Your task to perform on an android device: What are the best selling refrigerators at Home Depot? Image 0: 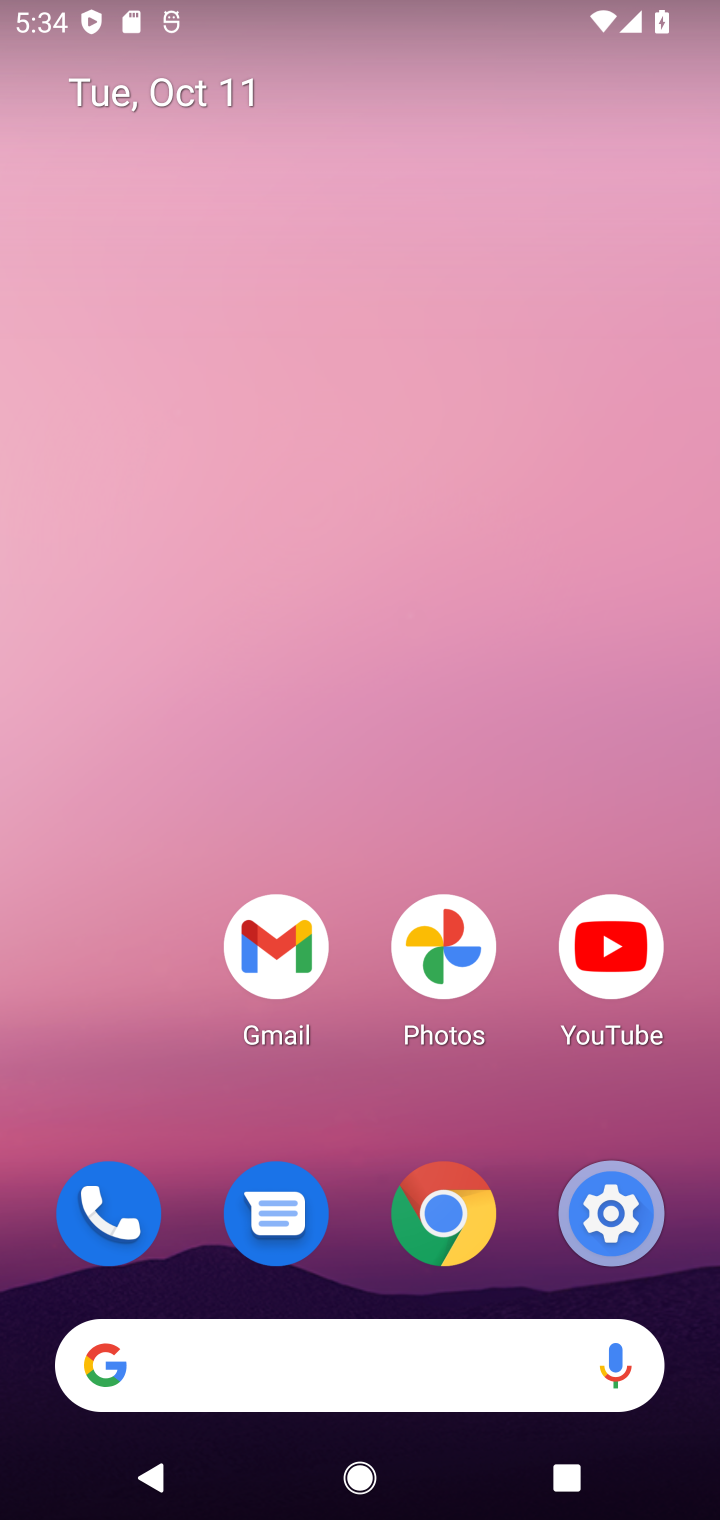
Step 0: click (447, 1229)
Your task to perform on an android device: What are the best selling refrigerators at Home Depot? Image 1: 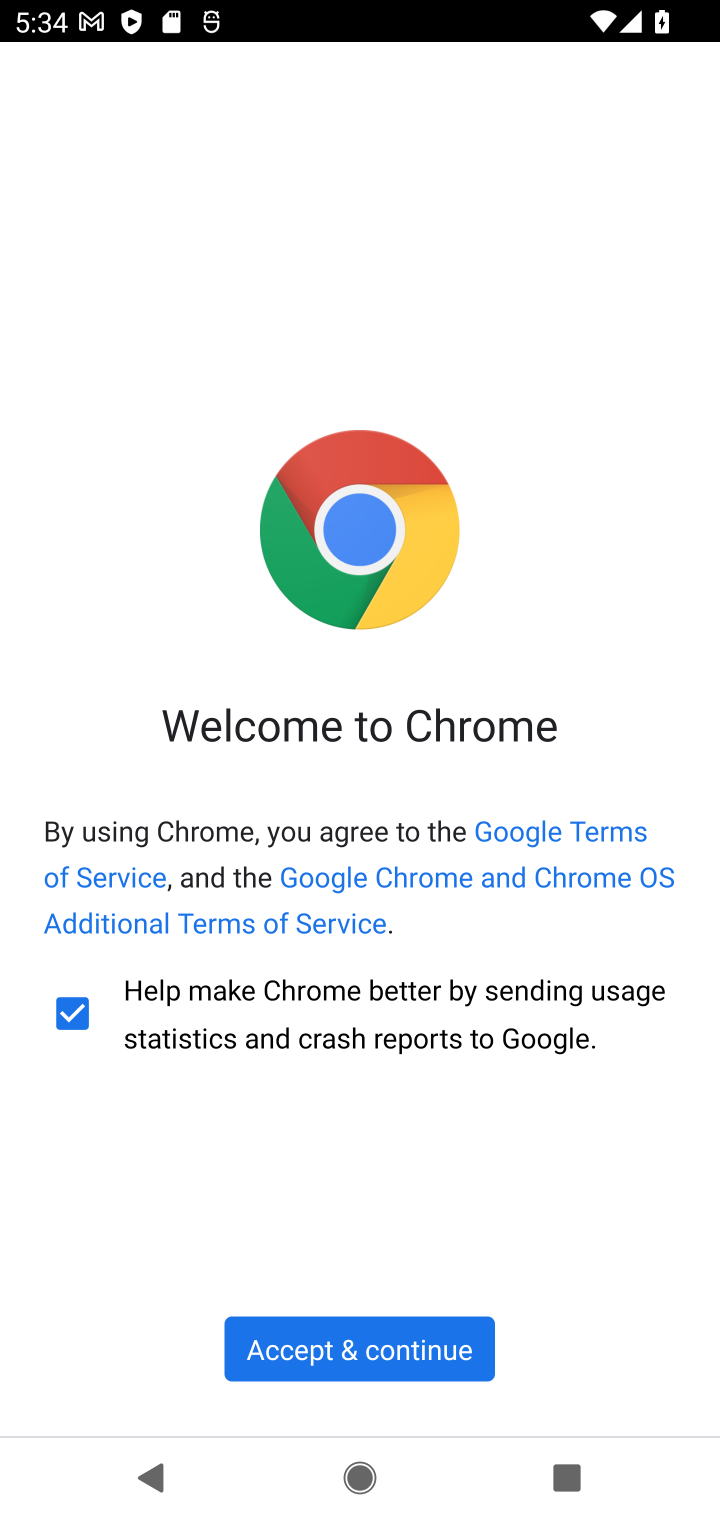
Step 1: click (431, 1337)
Your task to perform on an android device: What are the best selling refrigerators at Home Depot? Image 2: 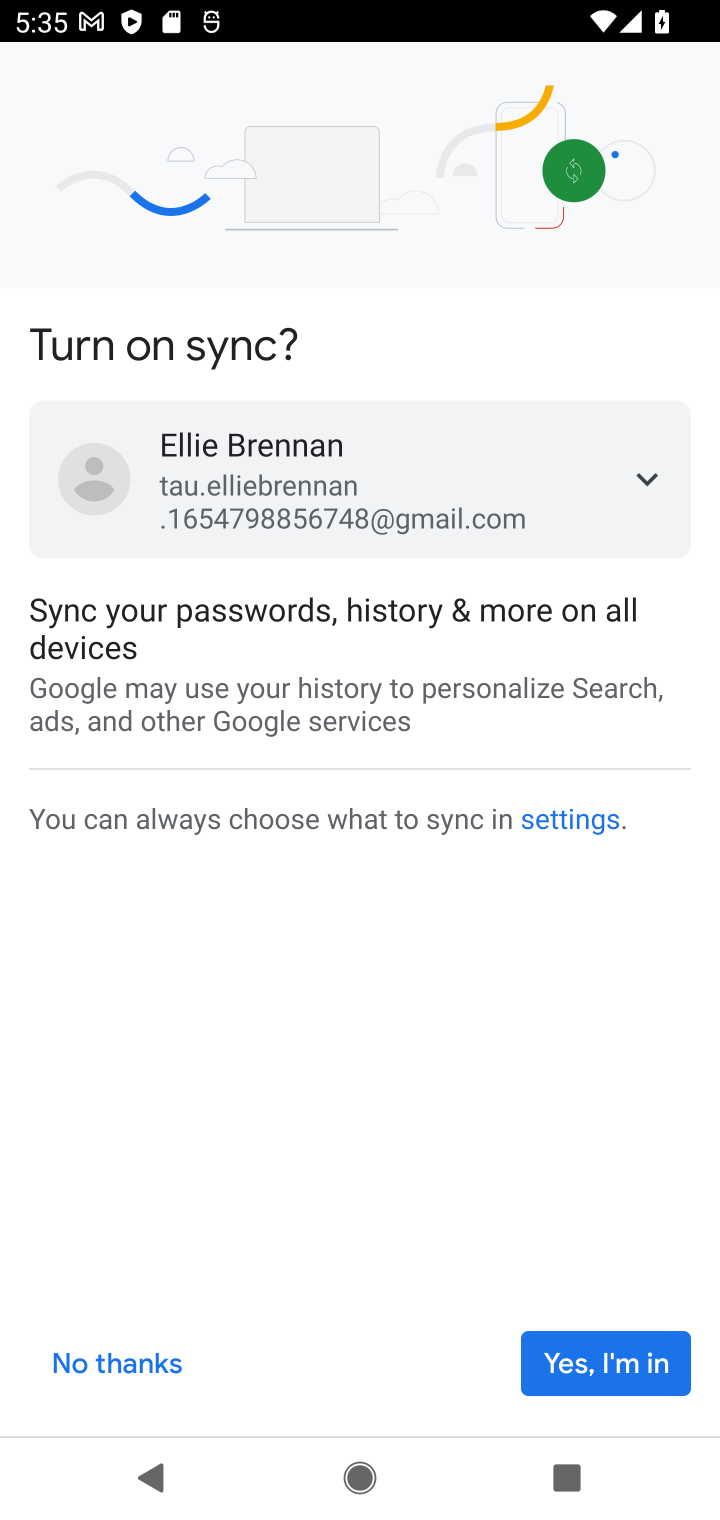
Step 2: click (590, 1365)
Your task to perform on an android device: What are the best selling refrigerators at Home Depot? Image 3: 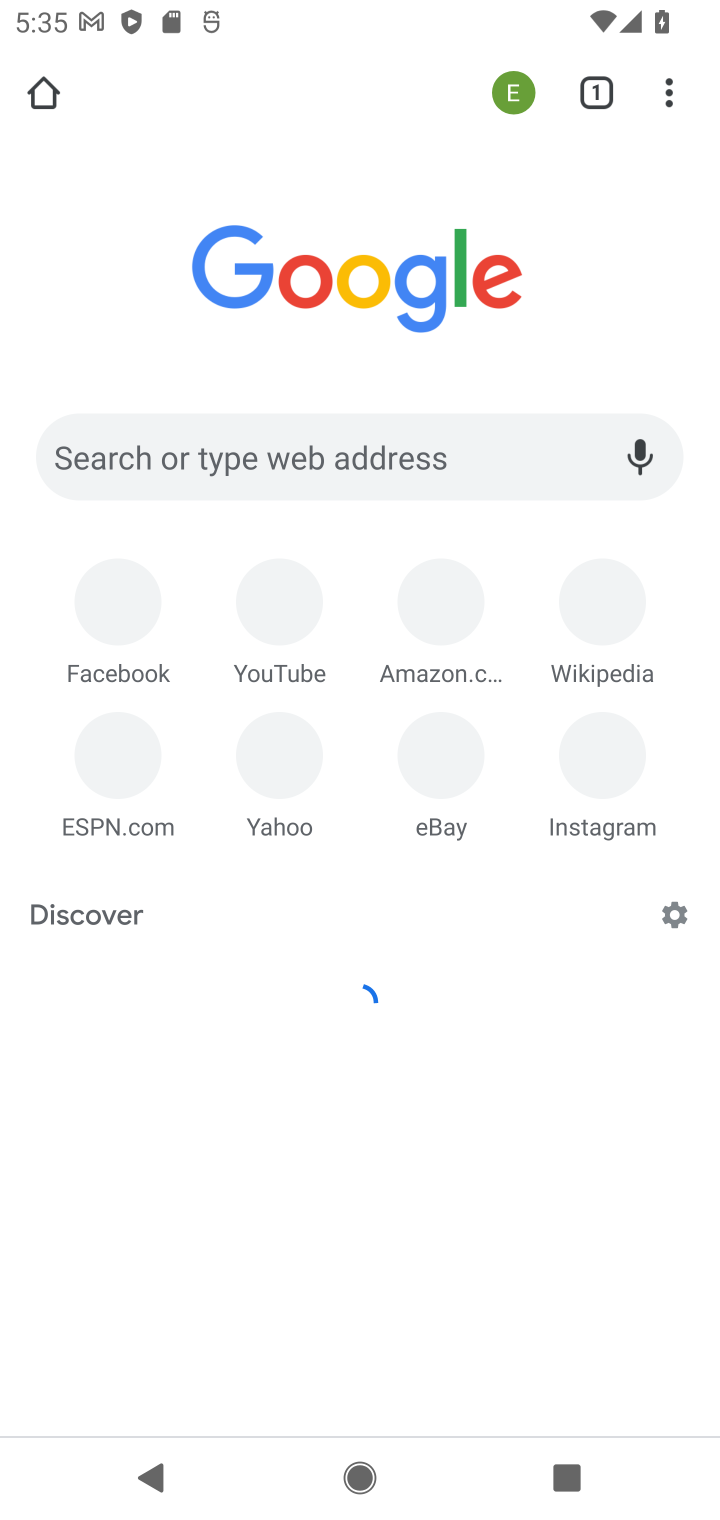
Step 3: click (422, 449)
Your task to perform on an android device: What are the best selling refrigerators at Home Depot? Image 4: 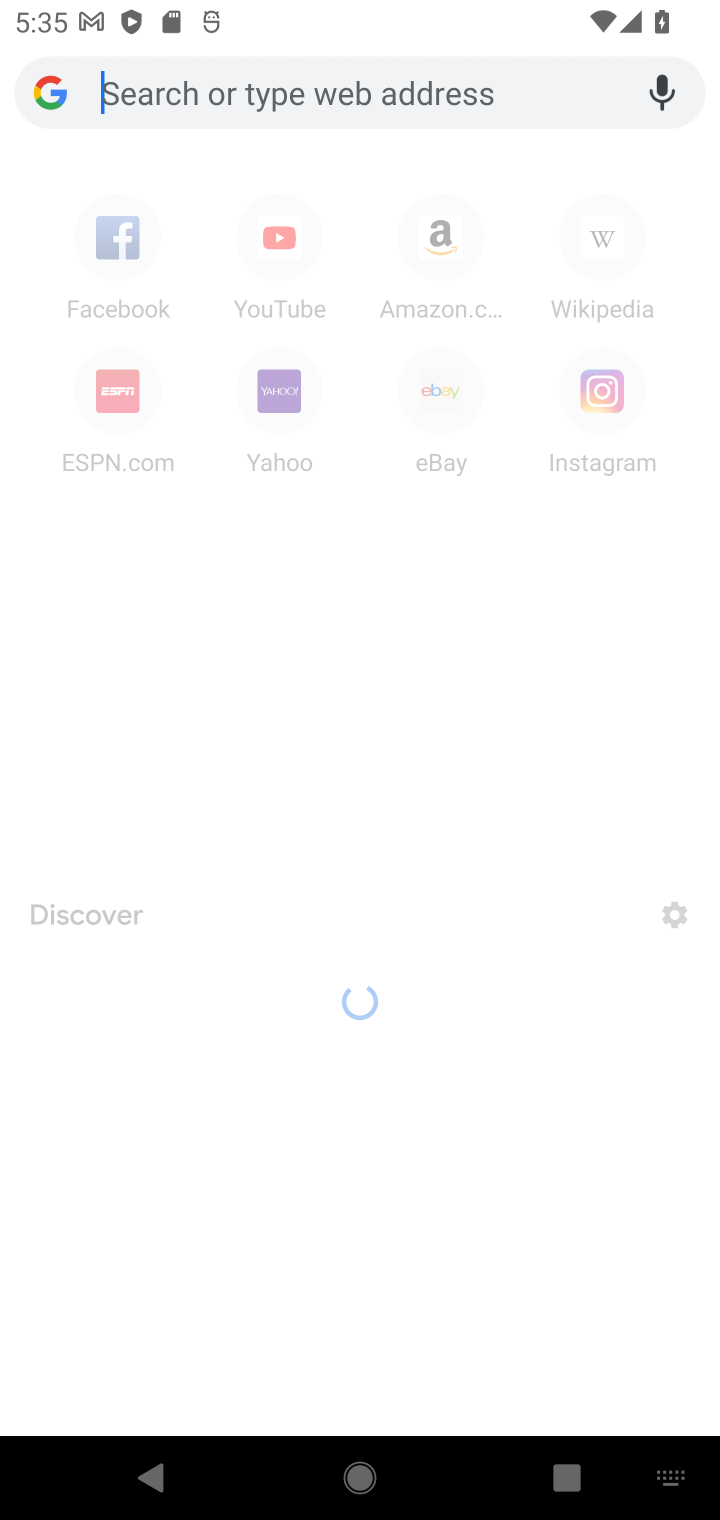
Step 4: type "What are the best selling refrigerators at Home Depot?"
Your task to perform on an android device: What are the best selling refrigerators at Home Depot? Image 5: 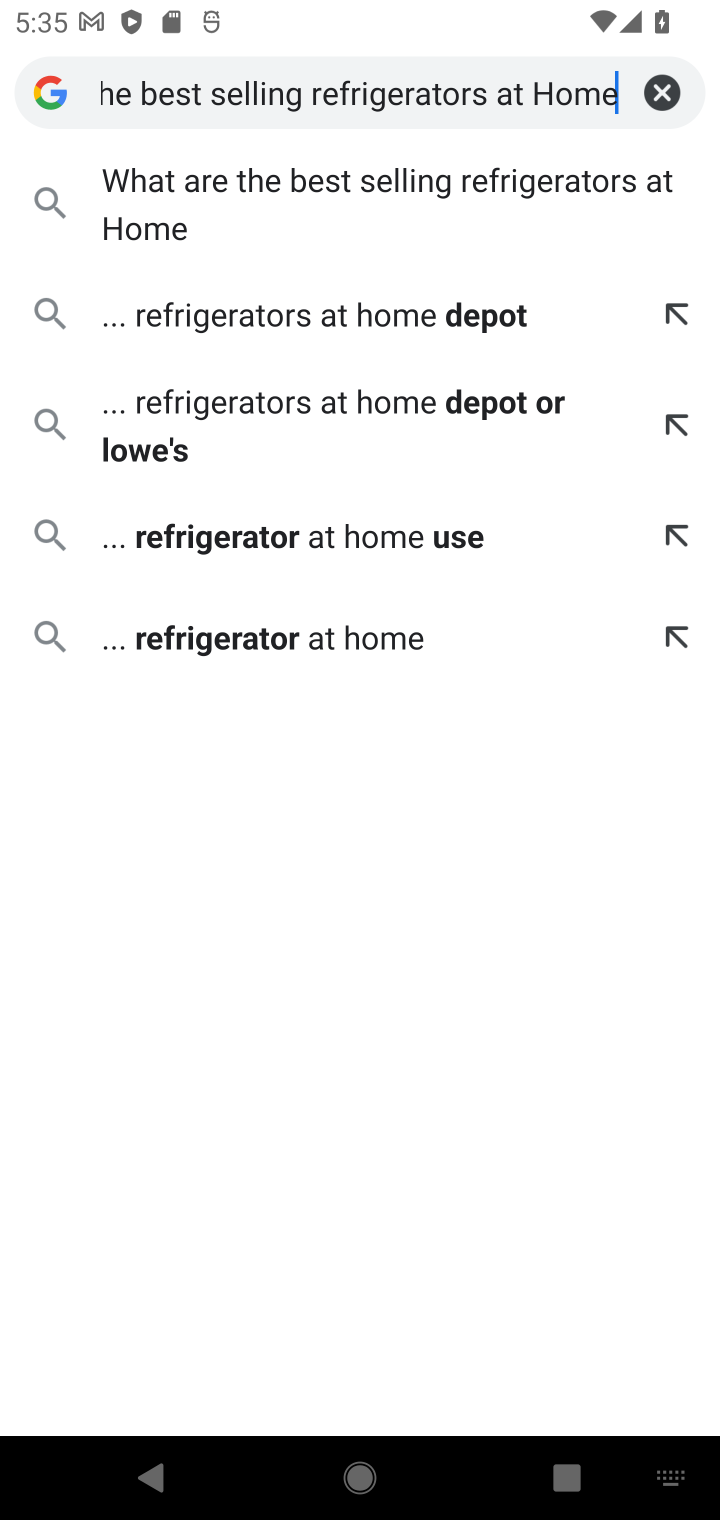
Step 5: press enter
Your task to perform on an android device: What are the best selling refrigerators at Home Depot? Image 6: 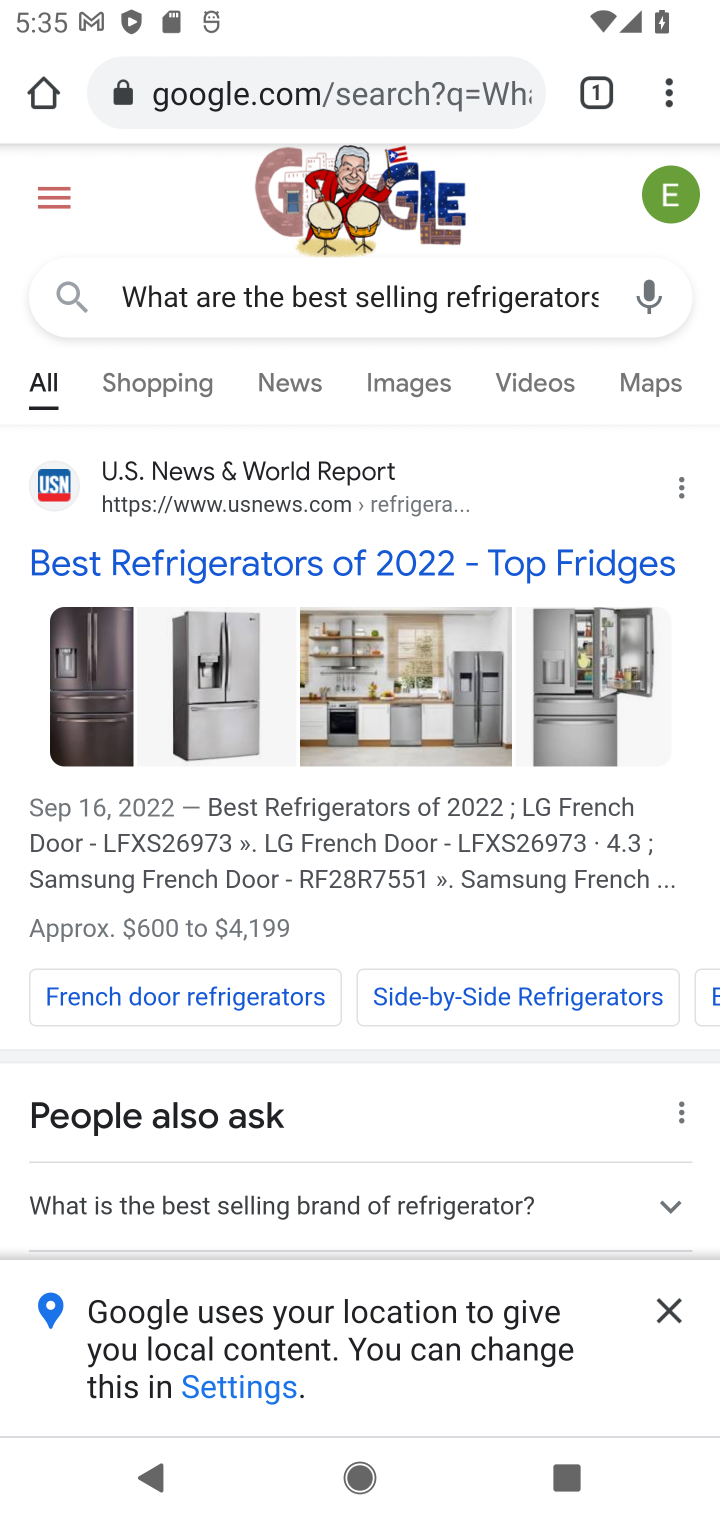
Step 6: drag from (419, 1126) to (397, 1222)
Your task to perform on an android device: What are the best selling refrigerators at Home Depot? Image 7: 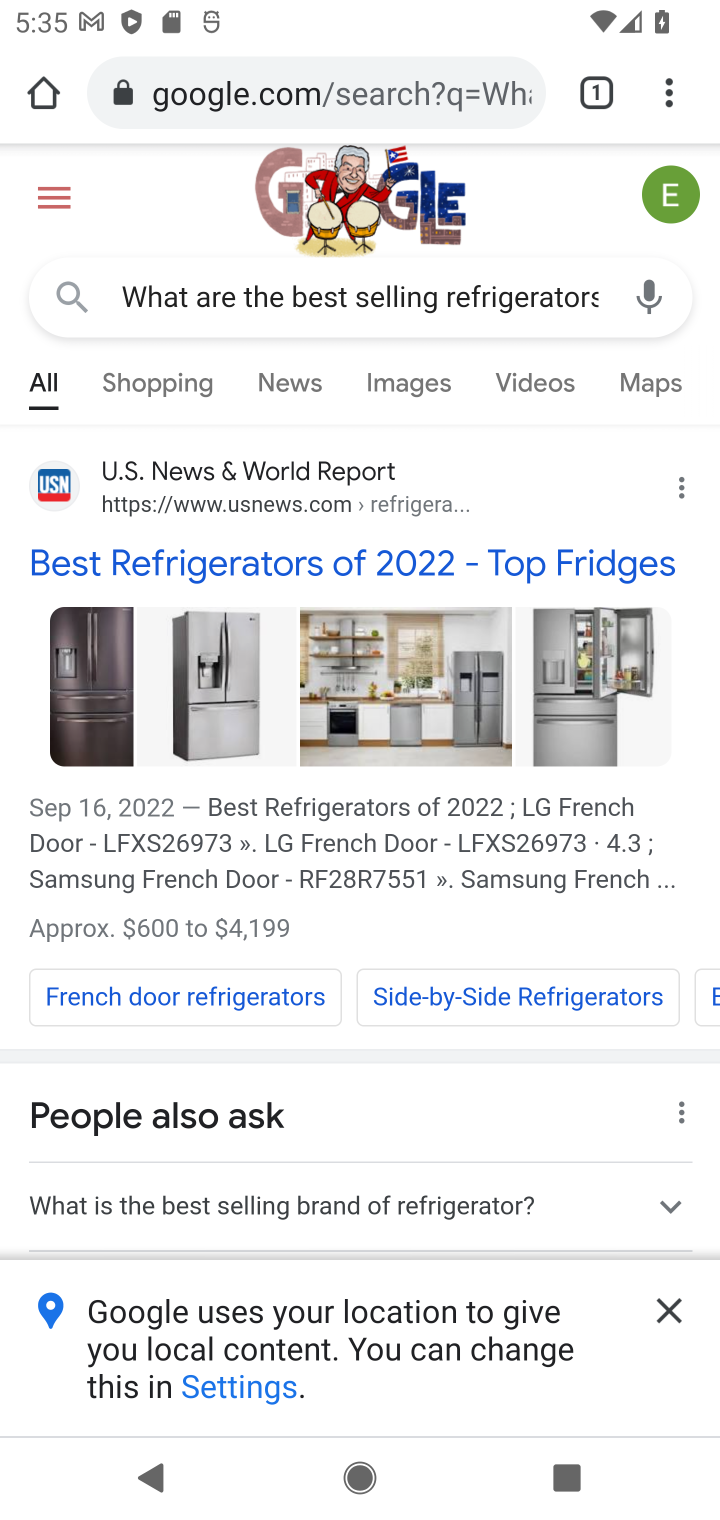
Step 7: click (365, 90)
Your task to perform on an android device: What are the best selling refrigerators at Home Depot? Image 8: 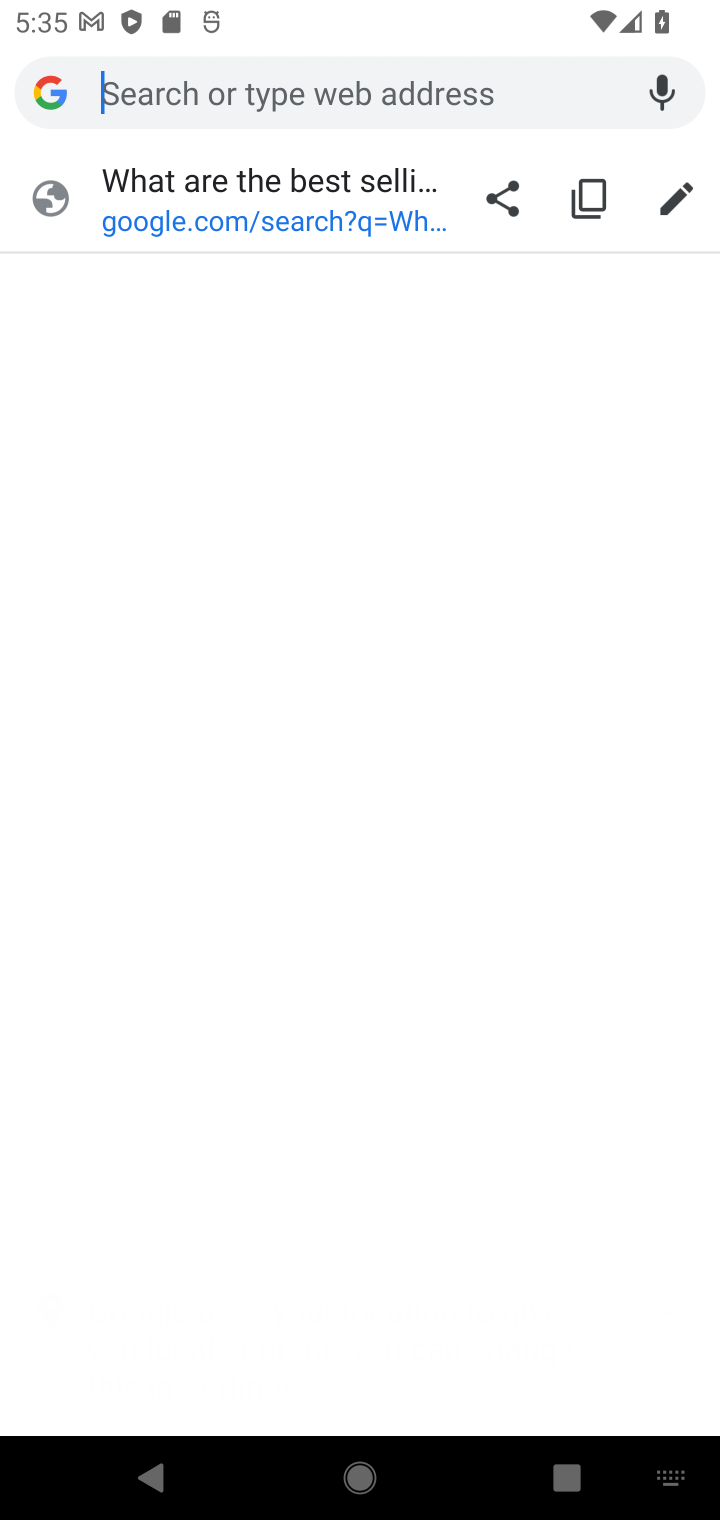
Step 8: type "What are the best selling refrigerators at Home Depot?"
Your task to perform on an android device: What are the best selling refrigerators at Home Depot? Image 9: 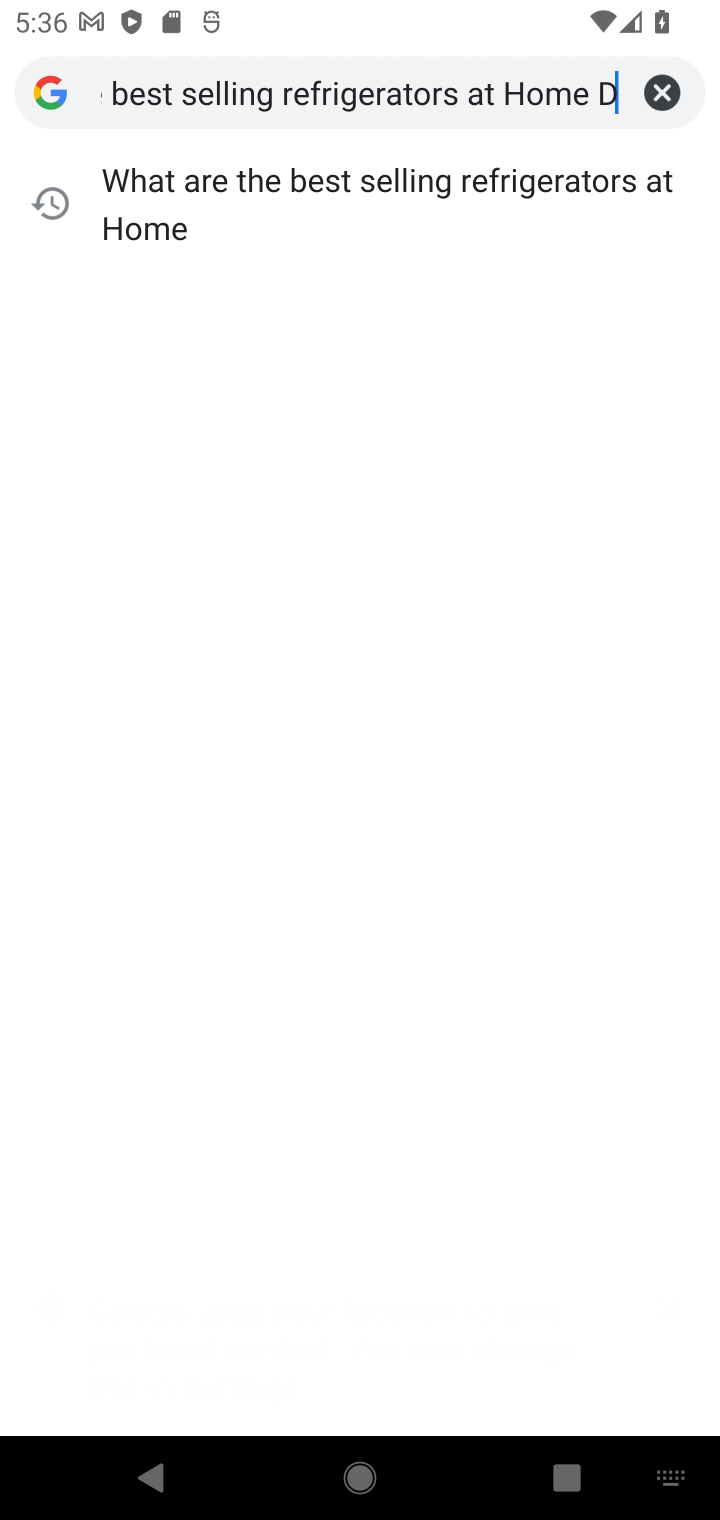
Step 9: type ""
Your task to perform on an android device: What are the best selling refrigerators at Home Depot? Image 10: 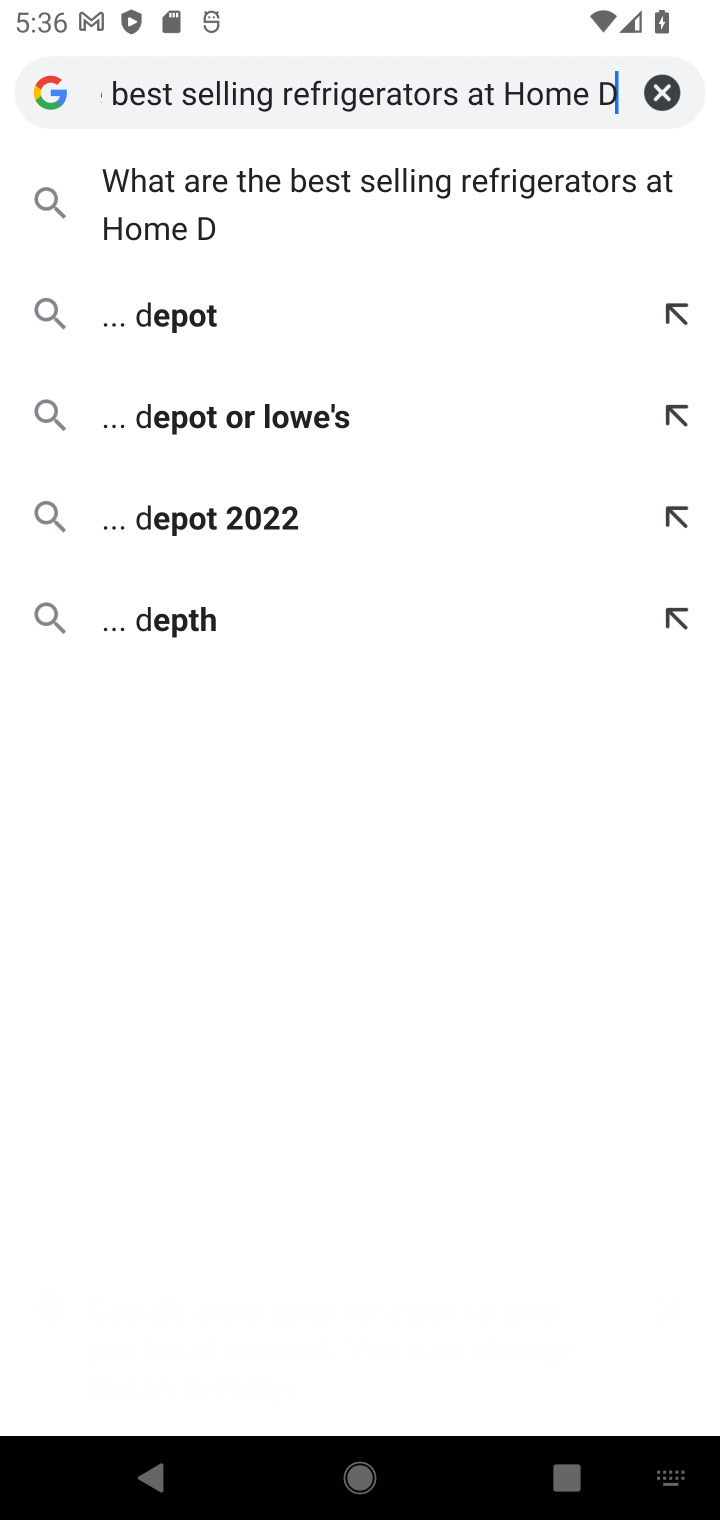
Step 10: click (258, 334)
Your task to perform on an android device: What are the best selling refrigerators at Home Depot? Image 11: 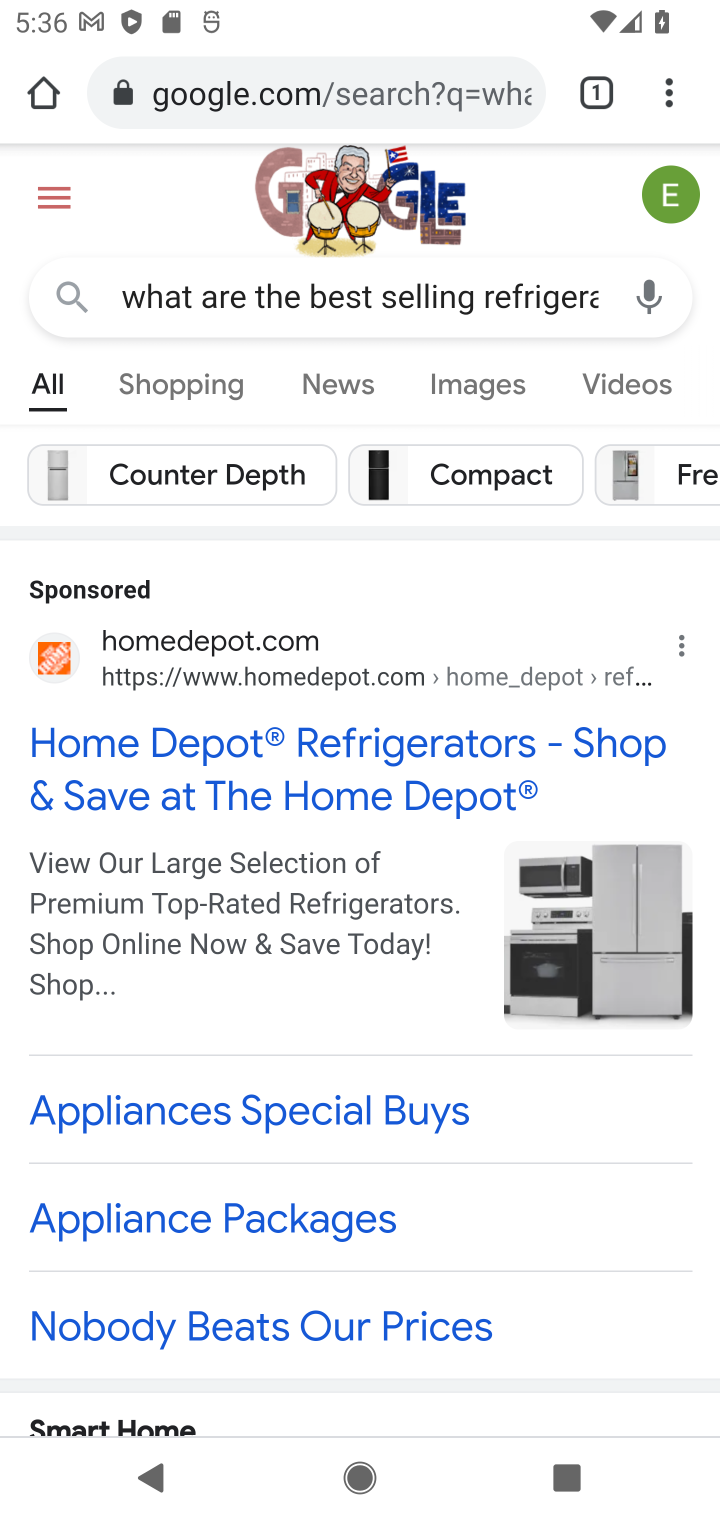
Step 11: click (267, 748)
Your task to perform on an android device: What are the best selling refrigerators at Home Depot? Image 12: 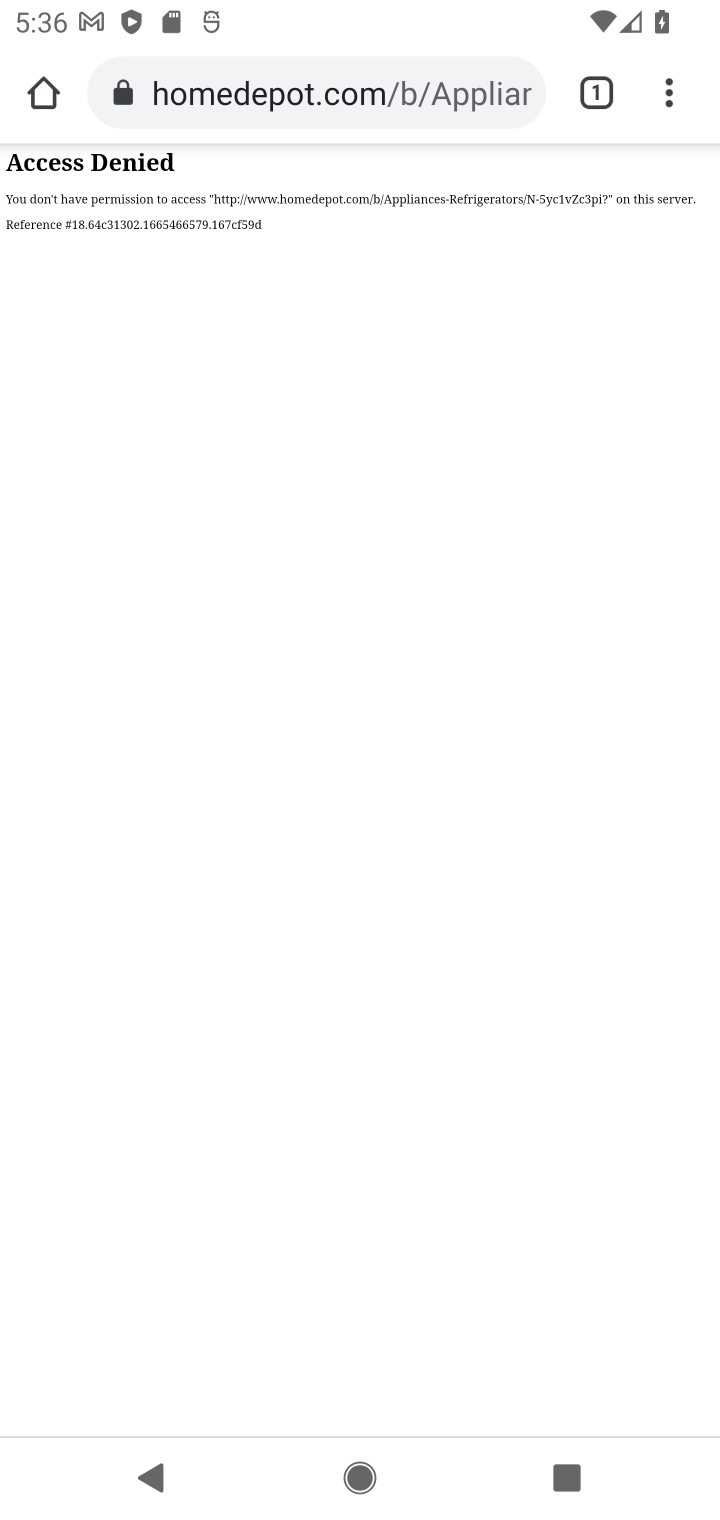
Step 12: press back button
Your task to perform on an android device: What are the best selling refrigerators at Home Depot? Image 13: 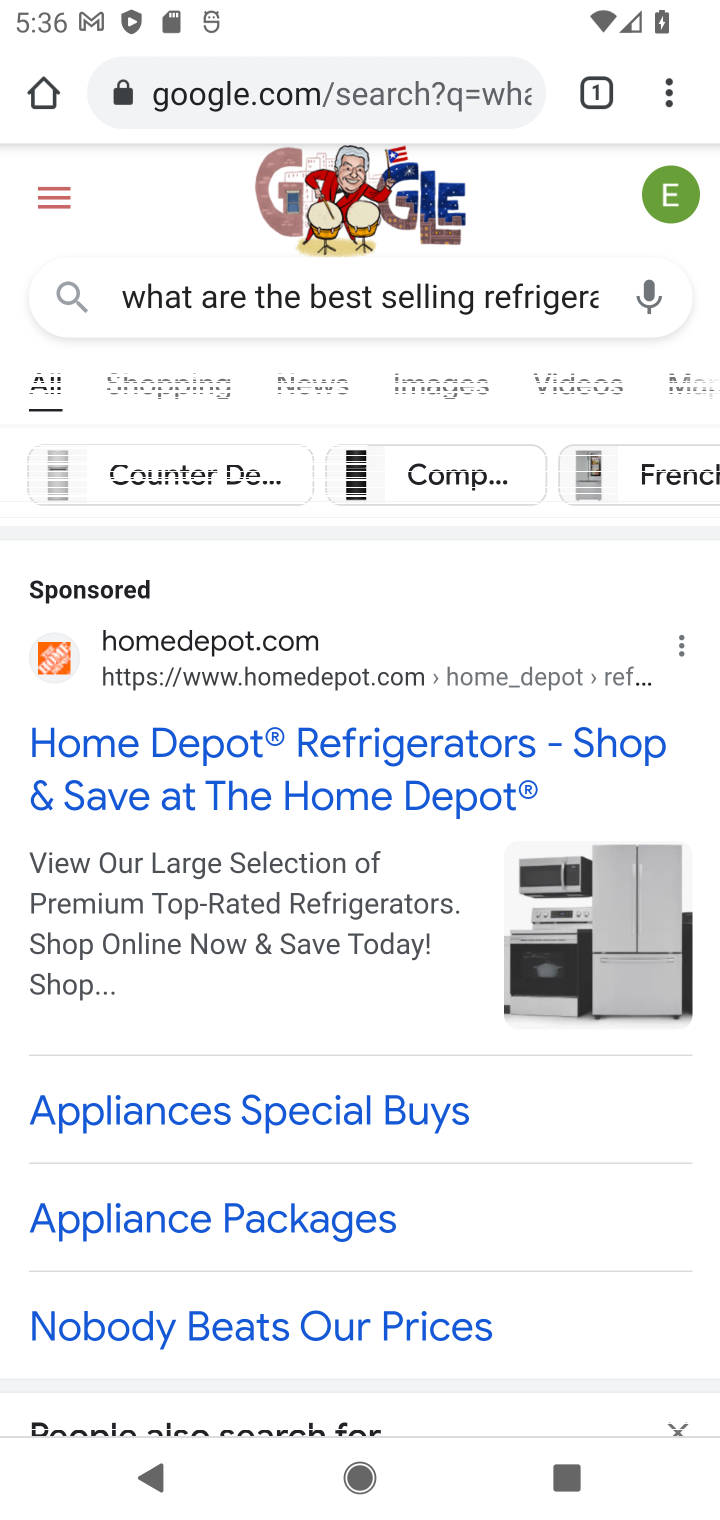
Step 13: drag from (303, 1141) to (334, 512)
Your task to perform on an android device: What are the best selling refrigerators at Home Depot? Image 14: 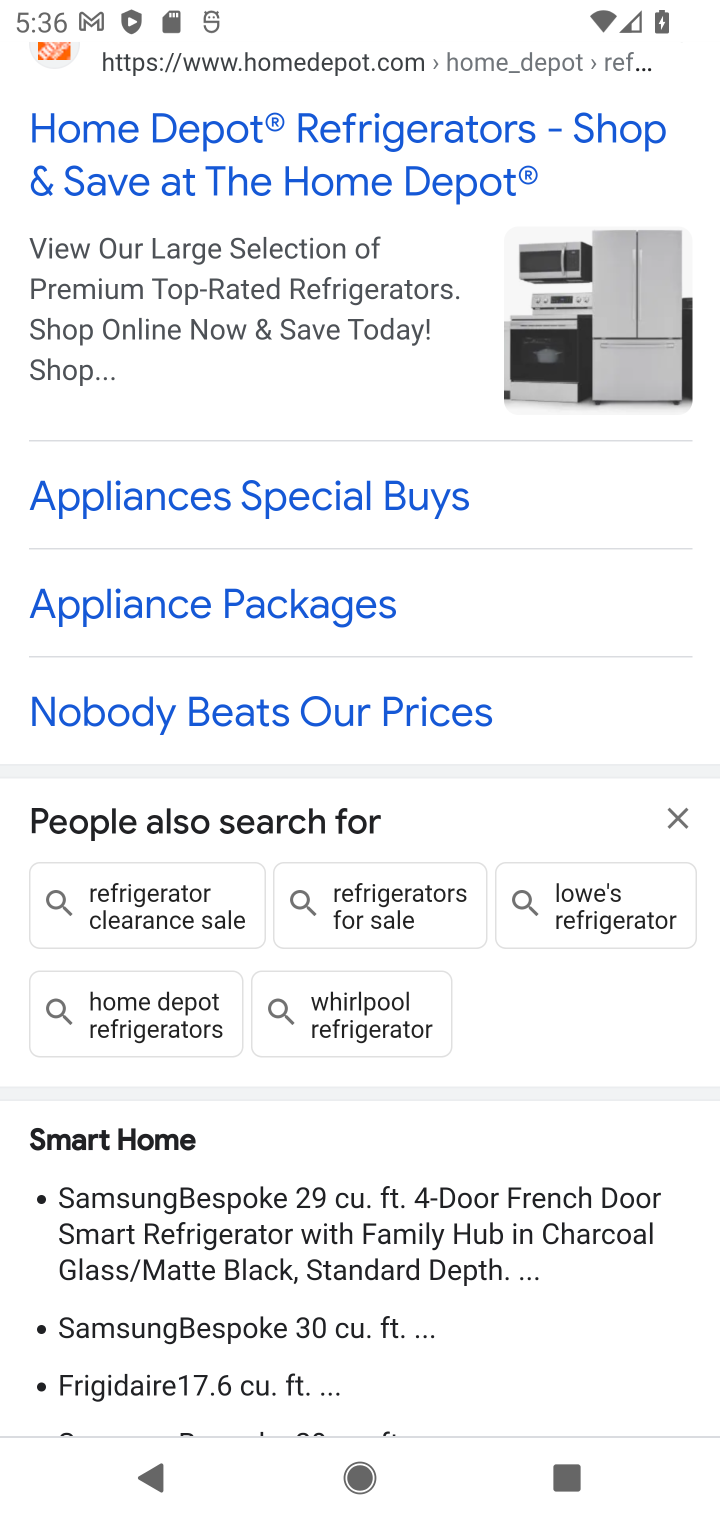
Step 14: drag from (282, 1158) to (332, 408)
Your task to perform on an android device: What are the best selling refrigerators at Home Depot? Image 15: 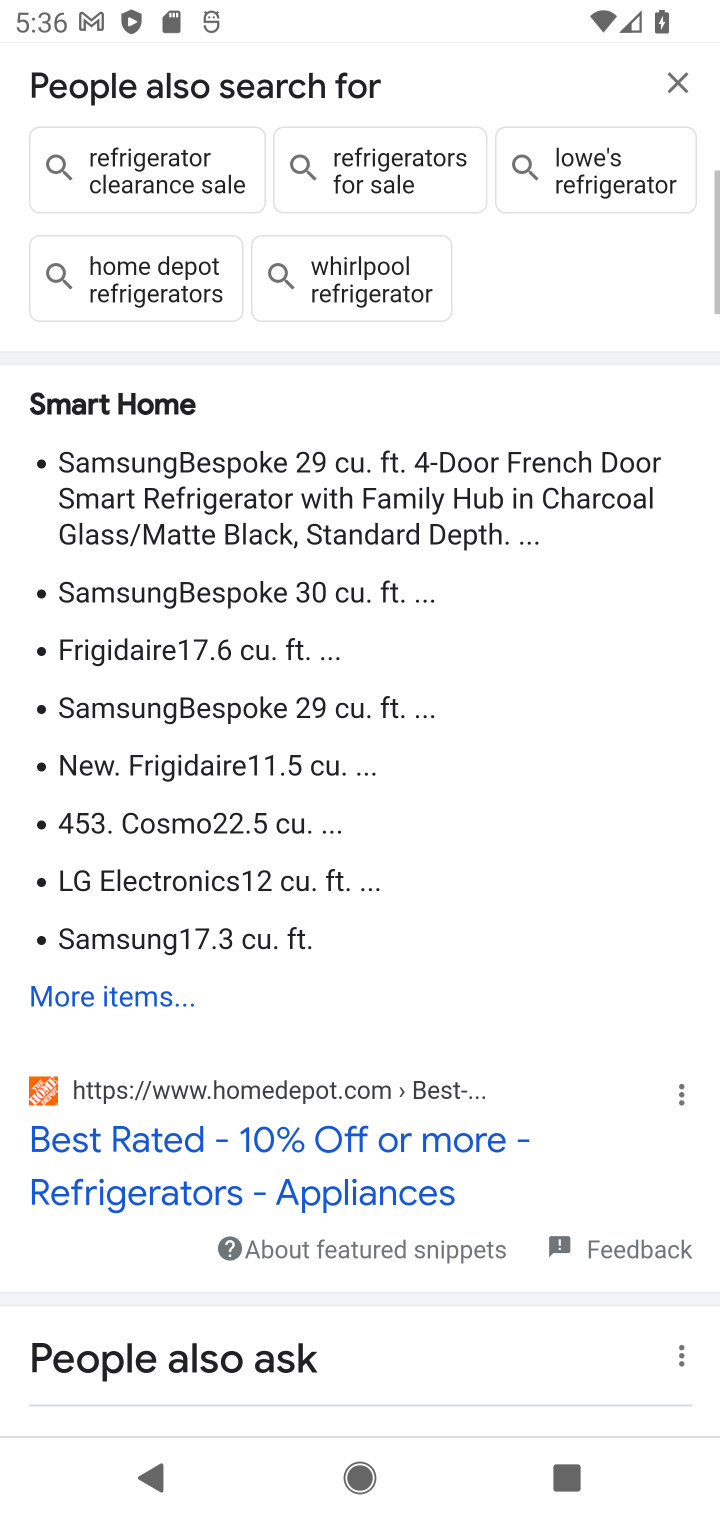
Step 15: drag from (352, 904) to (405, 474)
Your task to perform on an android device: What are the best selling refrigerators at Home Depot? Image 16: 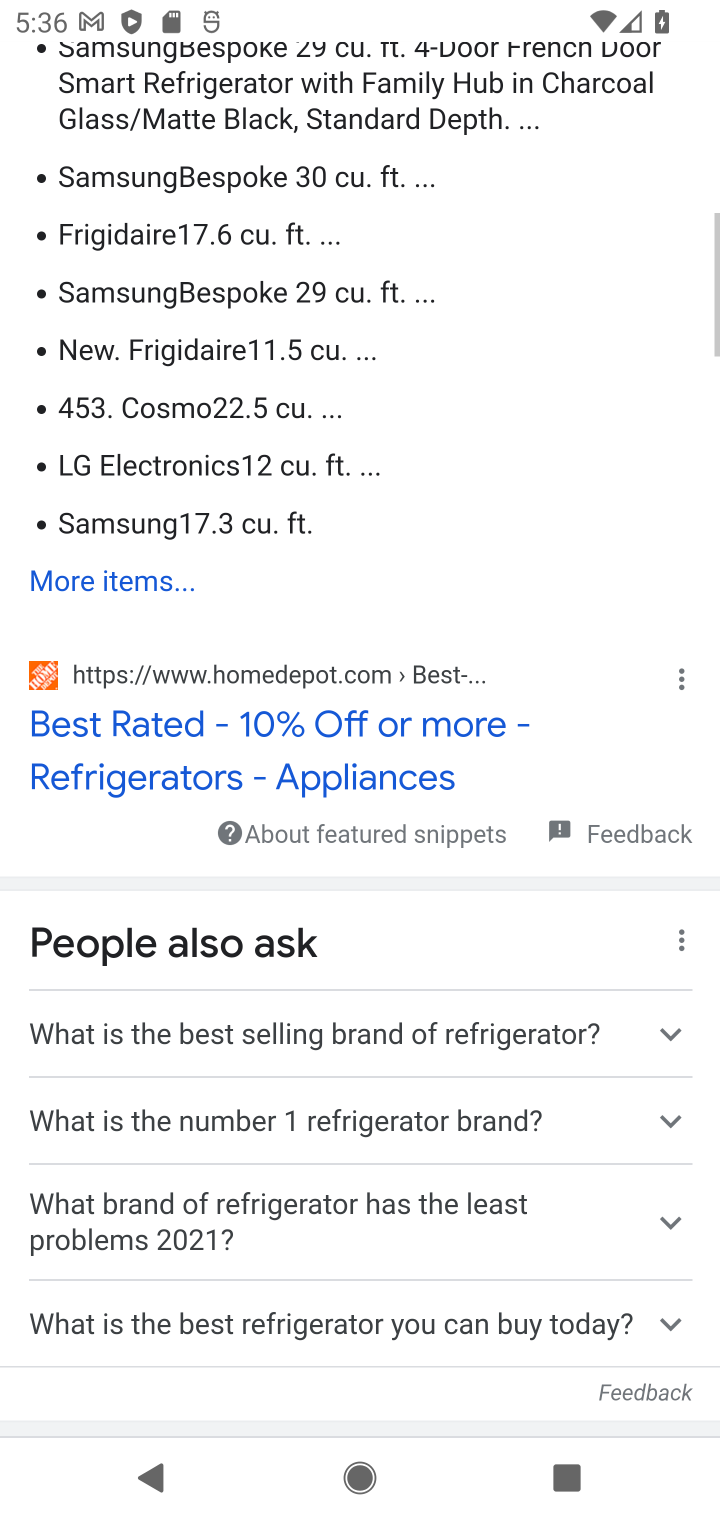
Step 16: drag from (390, 860) to (408, 626)
Your task to perform on an android device: What are the best selling refrigerators at Home Depot? Image 17: 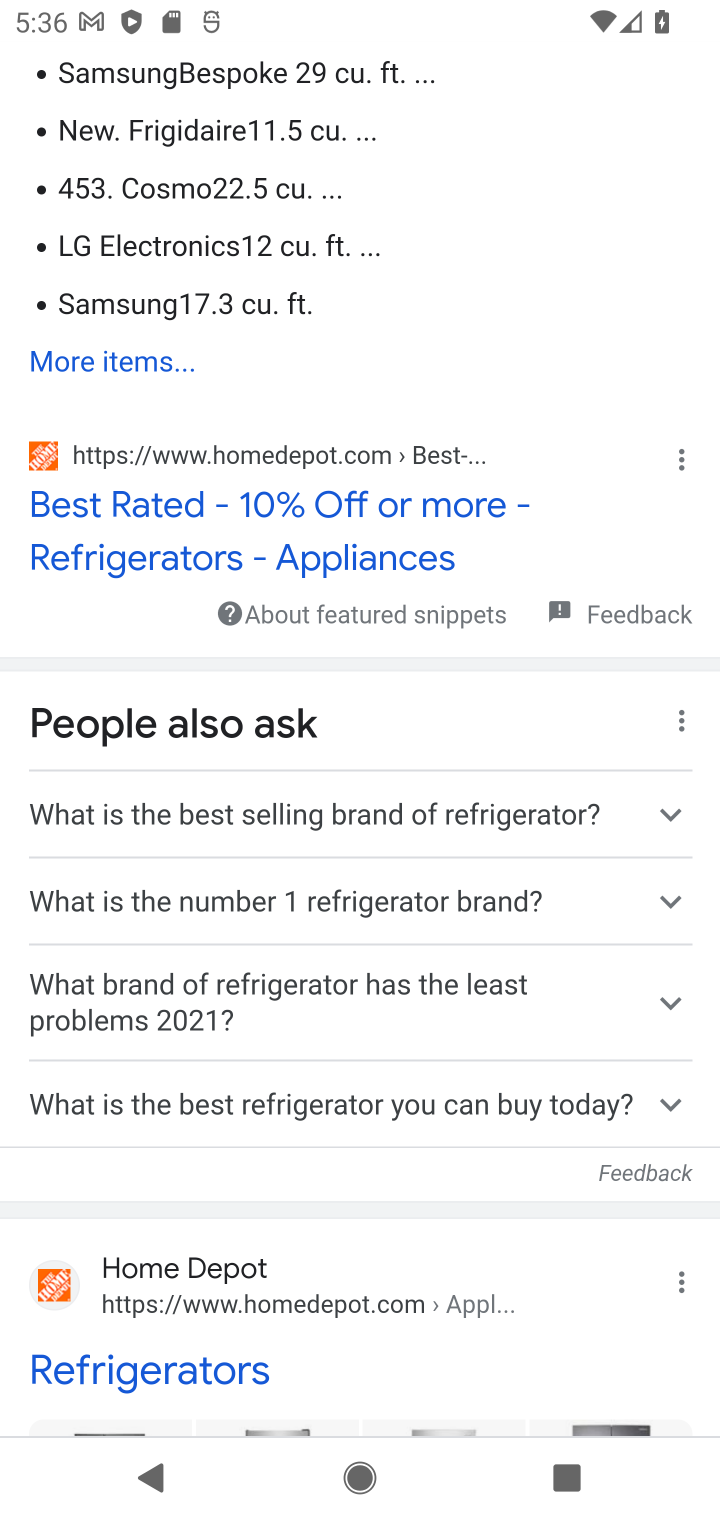
Step 17: click (338, 503)
Your task to perform on an android device: What are the best selling refrigerators at Home Depot? Image 18: 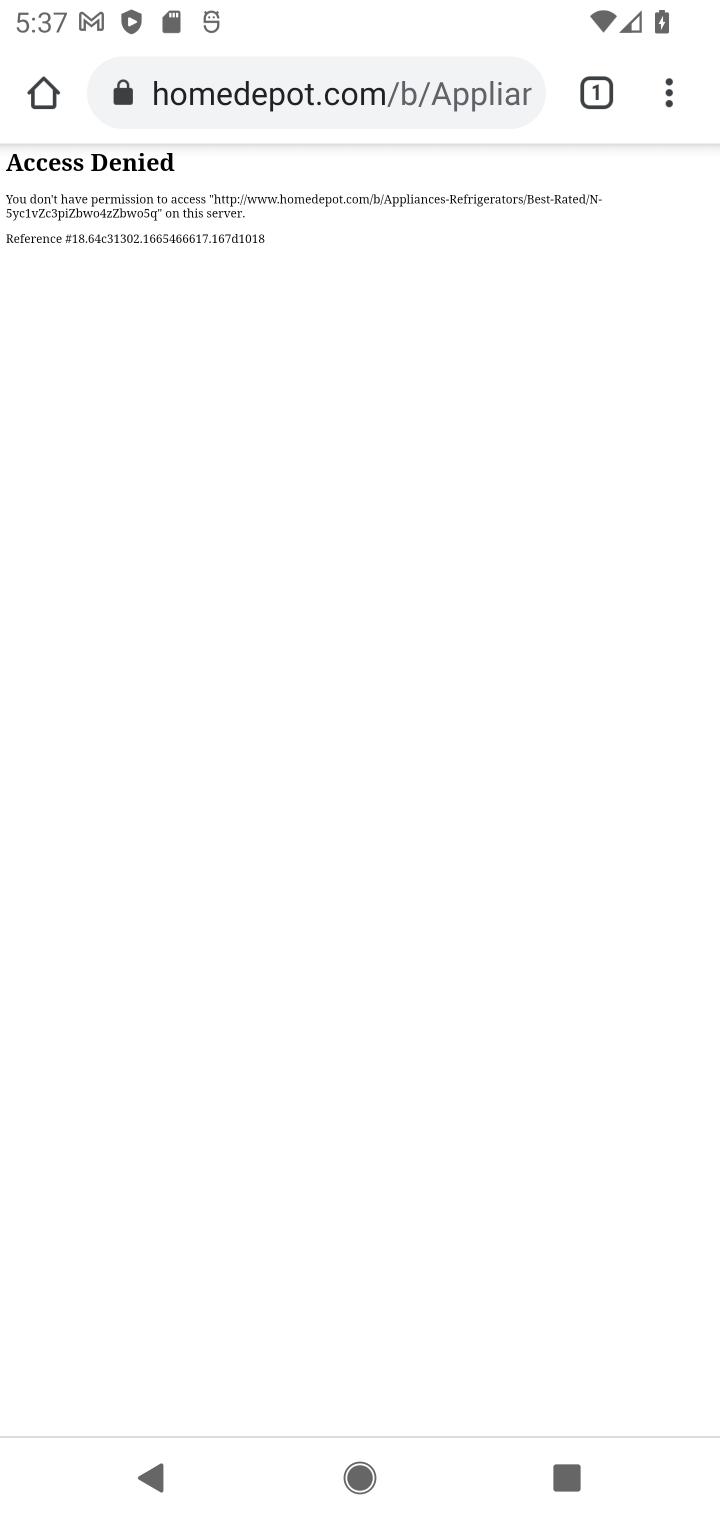
Step 18: press back button
Your task to perform on an android device: What are the best selling refrigerators at Home Depot? Image 19: 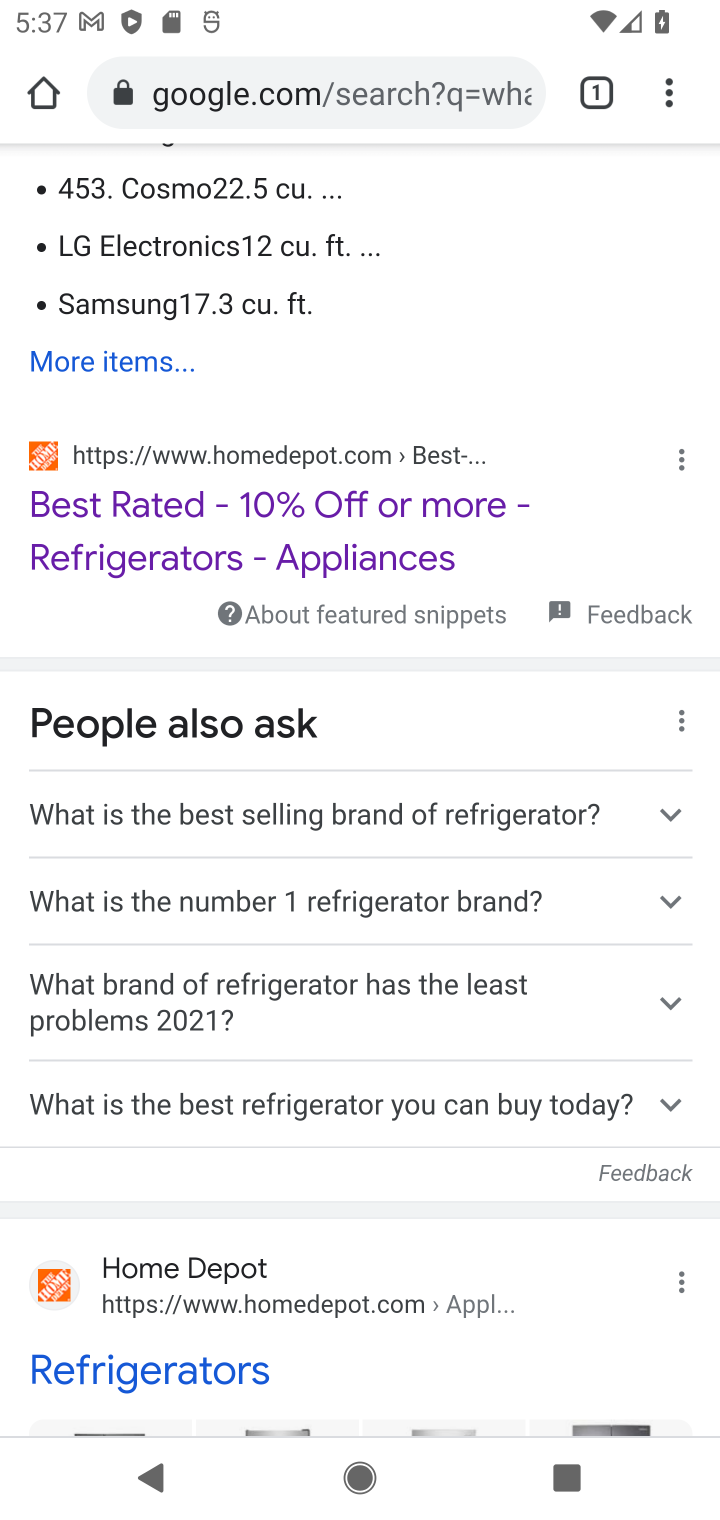
Step 19: drag from (667, 915) to (669, 494)
Your task to perform on an android device: What are the best selling refrigerators at Home Depot? Image 20: 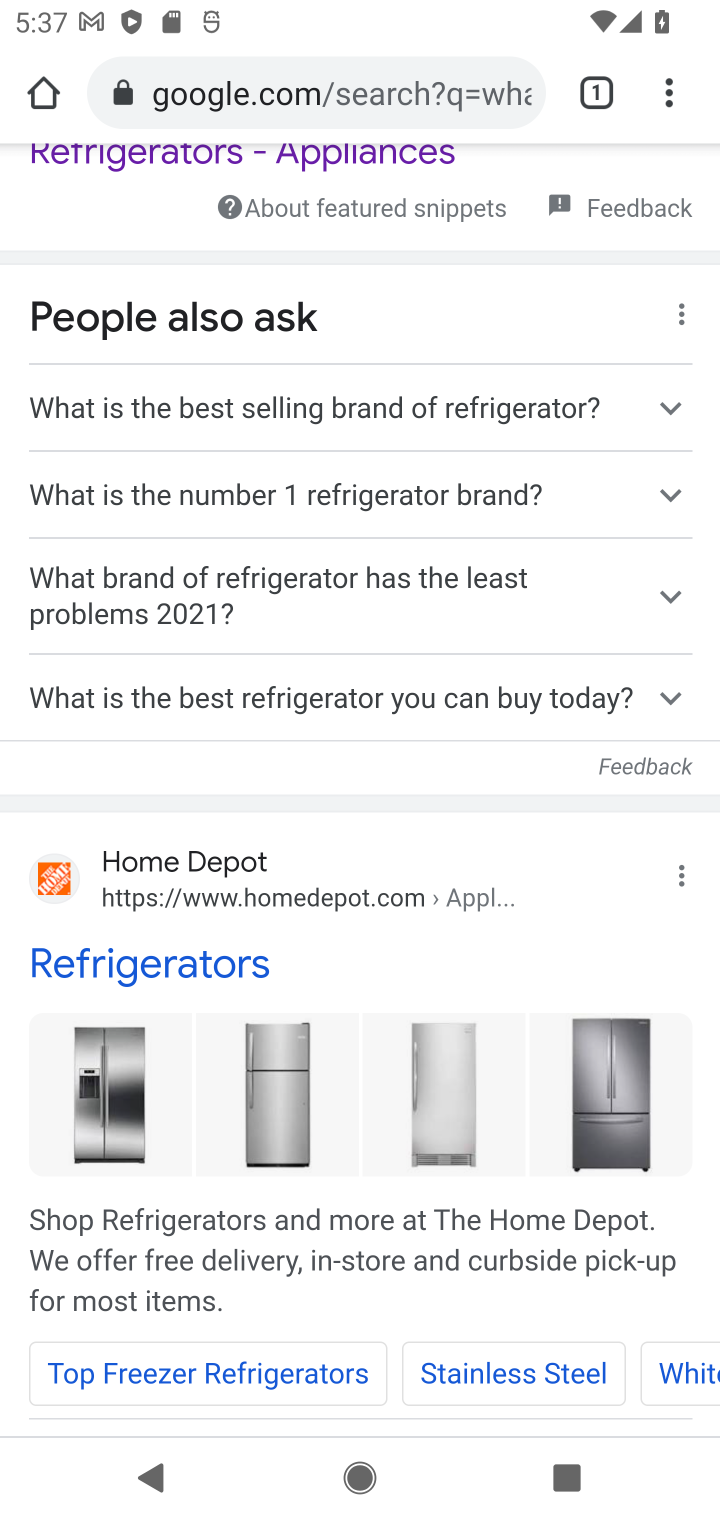
Step 20: drag from (454, 1091) to (528, 167)
Your task to perform on an android device: What are the best selling refrigerators at Home Depot? Image 21: 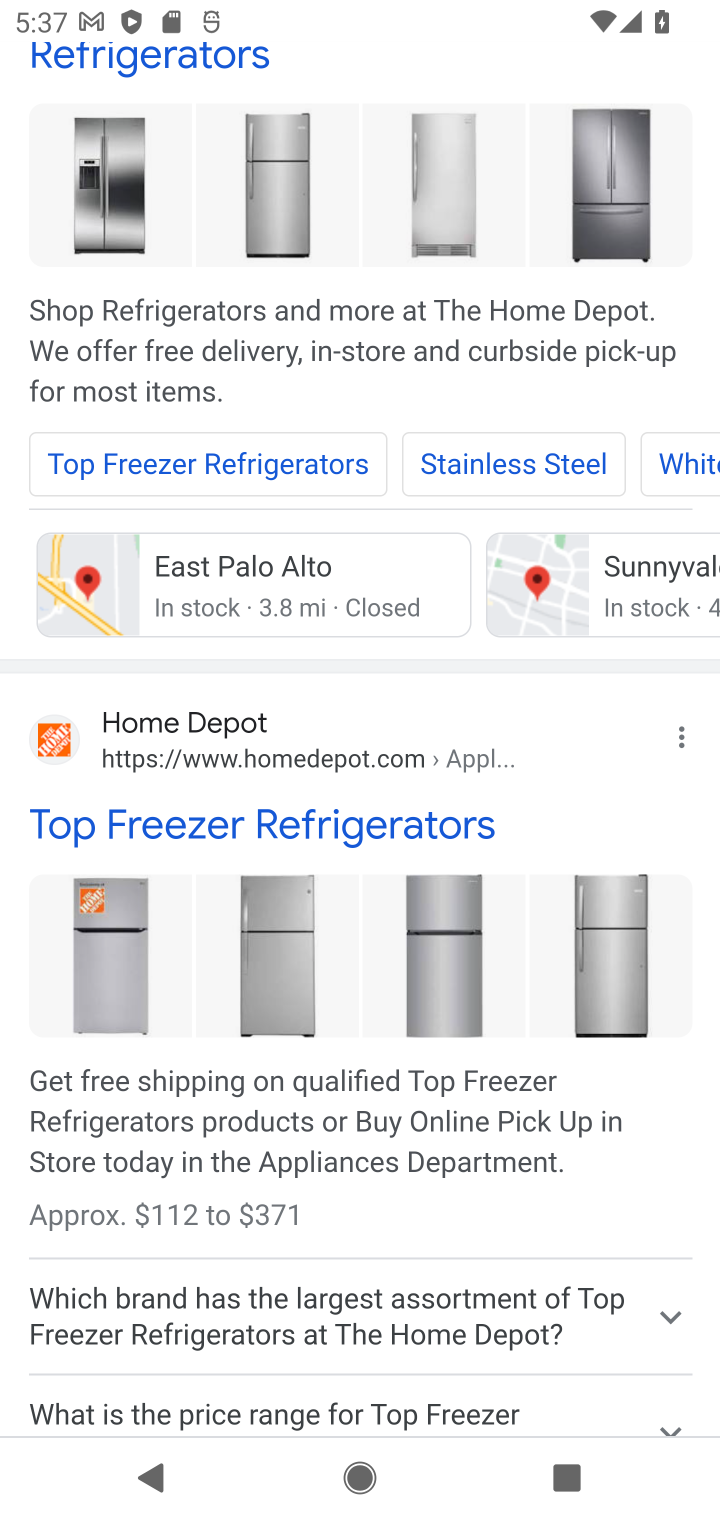
Step 21: click (202, 748)
Your task to perform on an android device: What are the best selling refrigerators at Home Depot? Image 22: 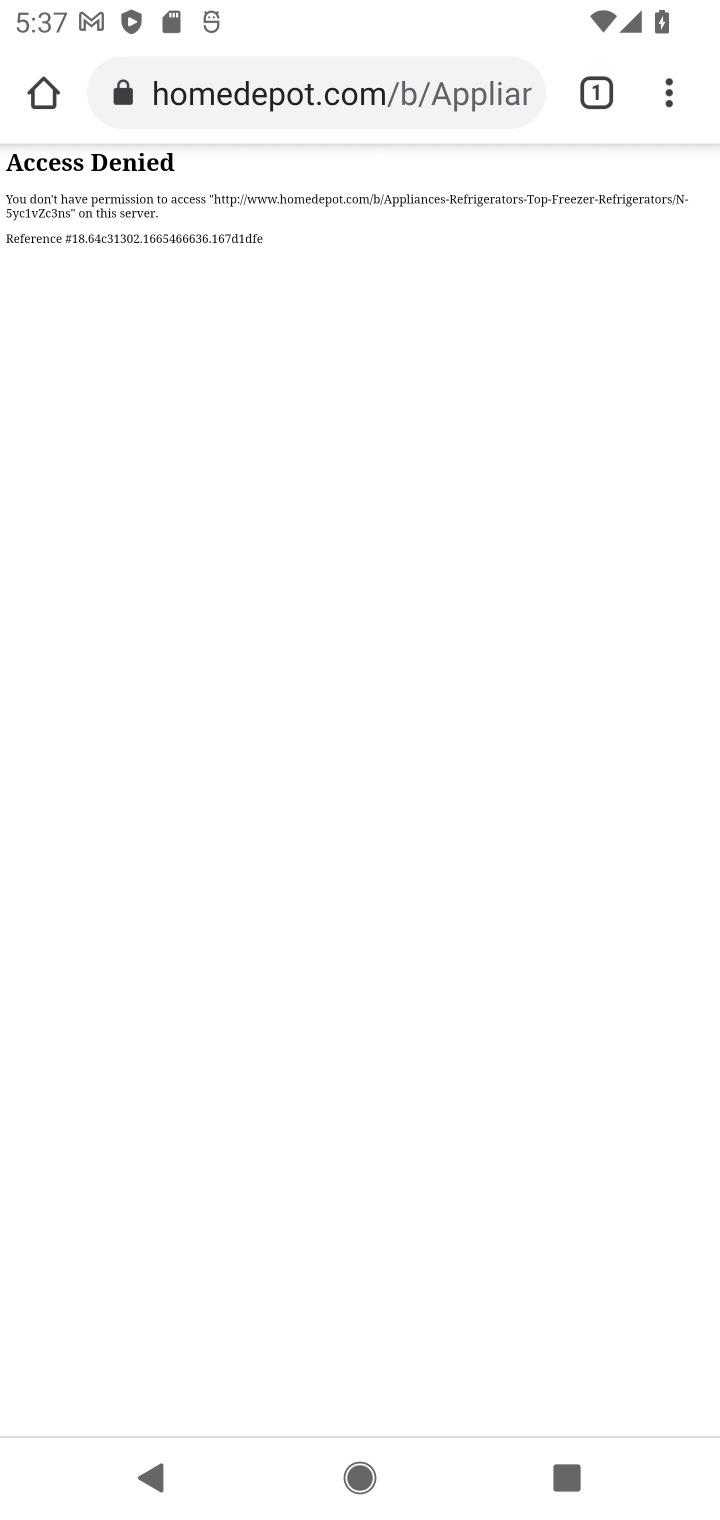
Step 22: press back button
Your task to perform on an android device: What are the best selling refrigerators at Home Depot? Image 23: 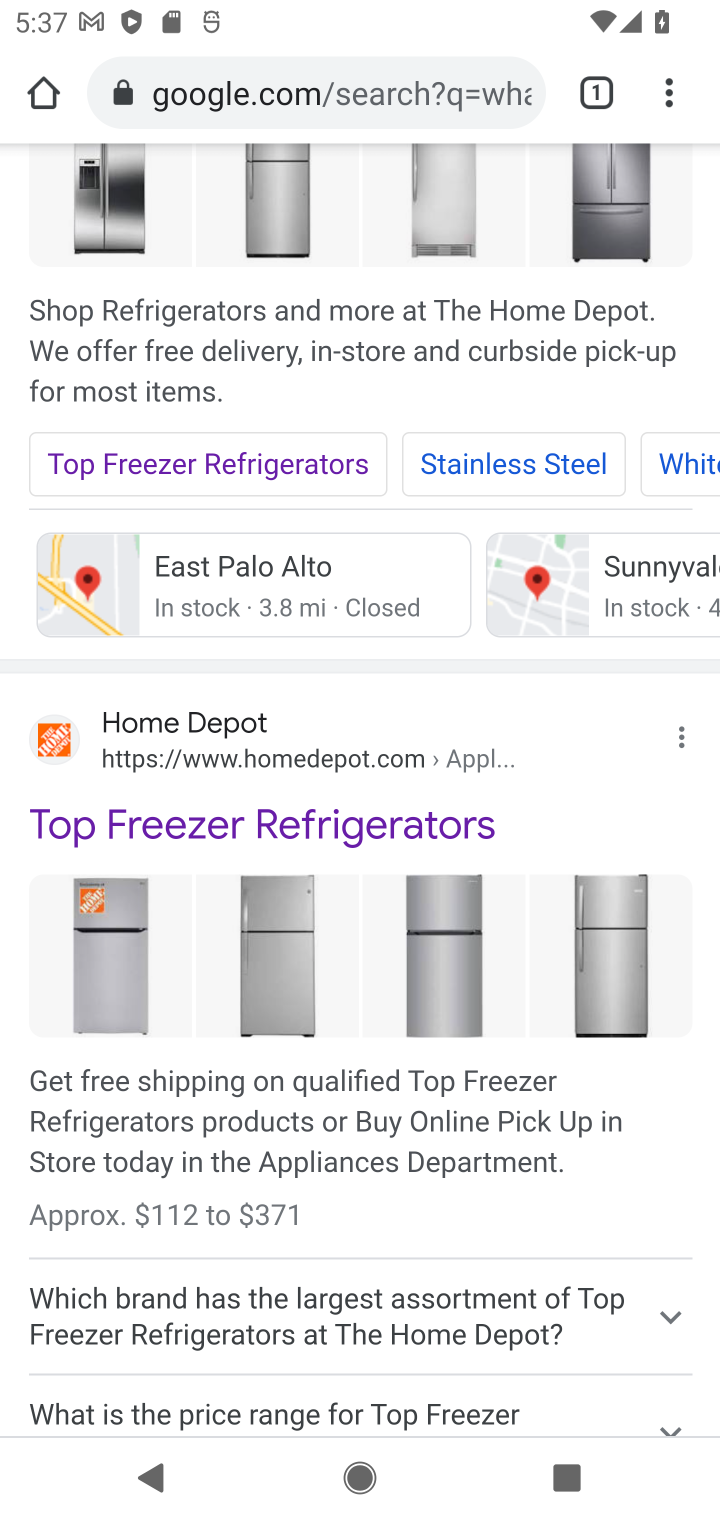
Step 23: drag from (284, 1359) to (403, 317)
Your task to perform on an android device: What are the best selling refrigerators at Home Depot? Image 24: 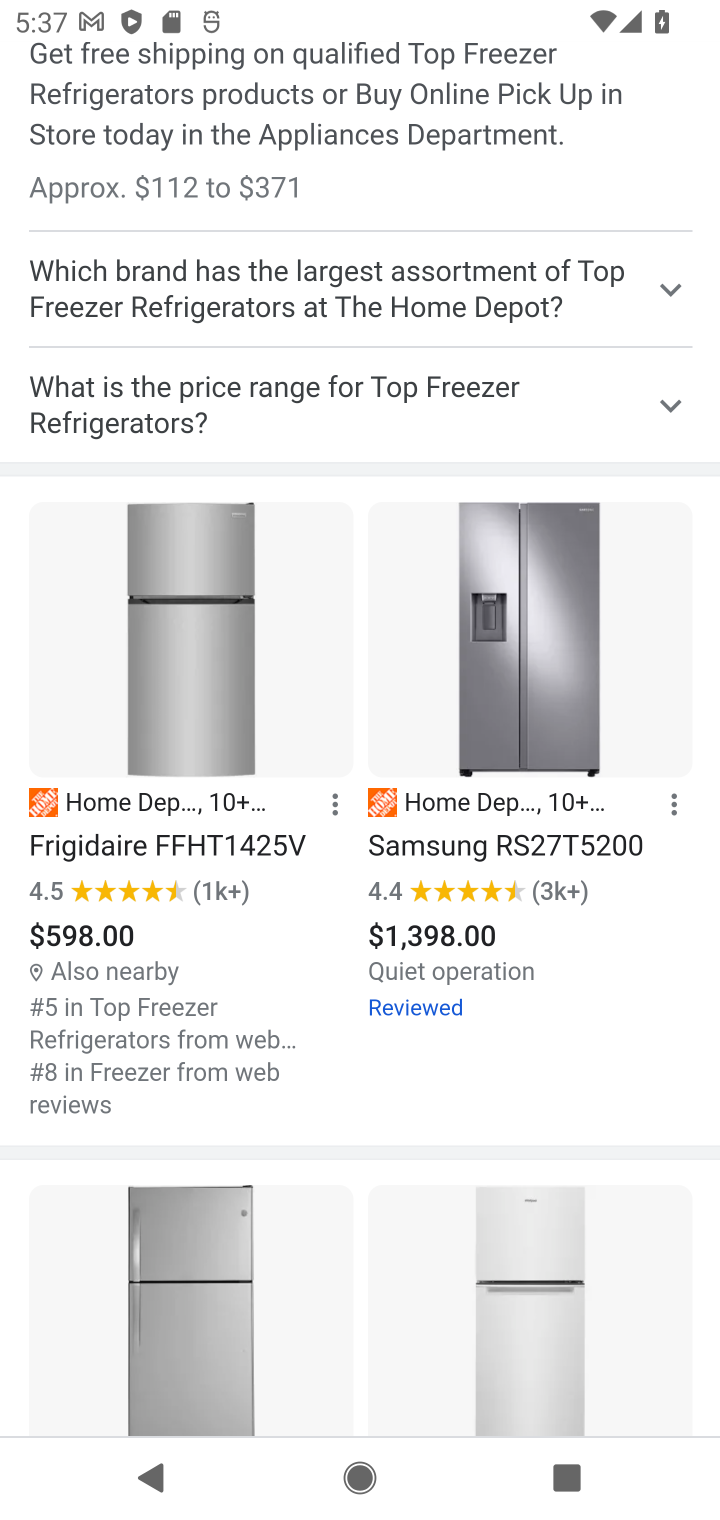
Step 24: click (154, 841)
Your task to perform on an android device: What are the best selling refrigerators at Home Depot? Image 25: 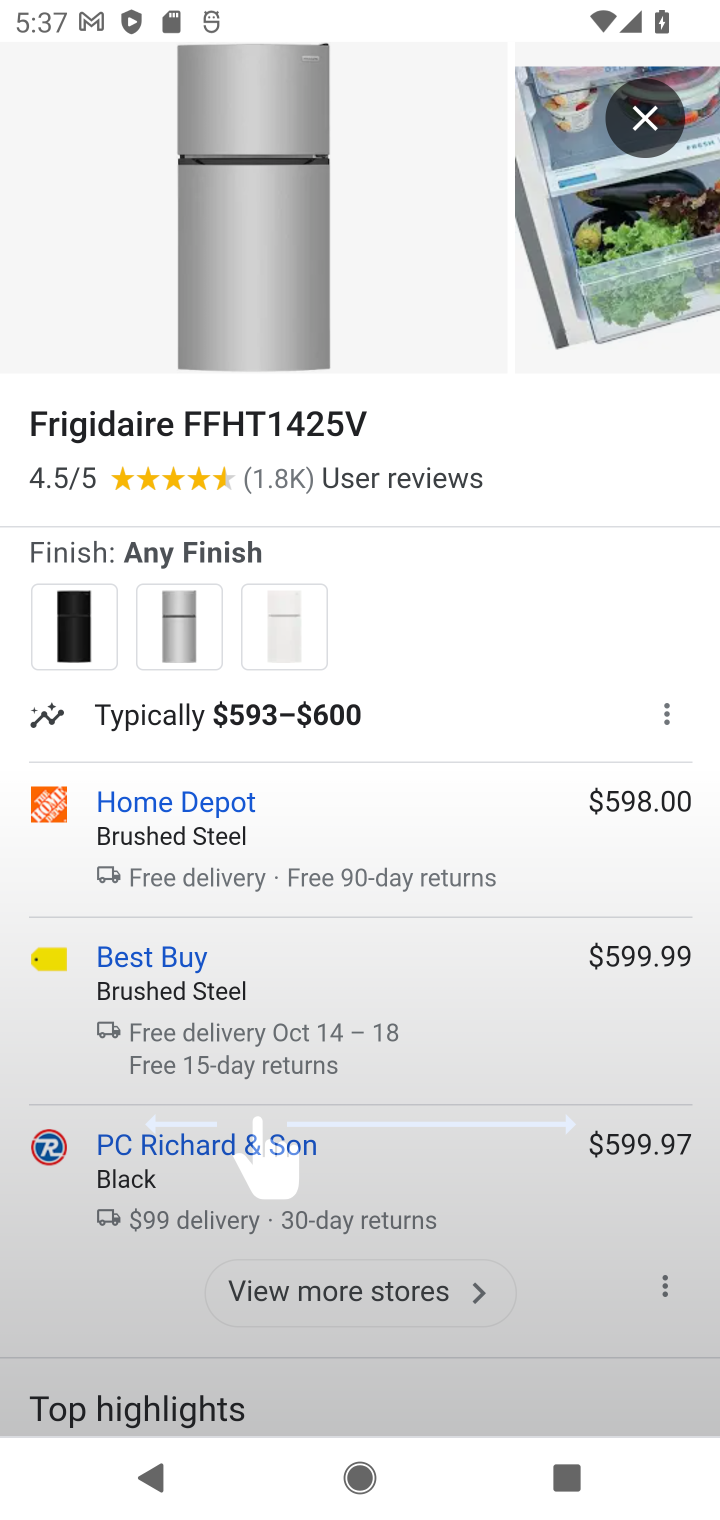
Step 25: drag from (624, 580) to (52, 558)
Your task to perform on an android device: What are the best selling refrigerators at Home Depot? Image 26: 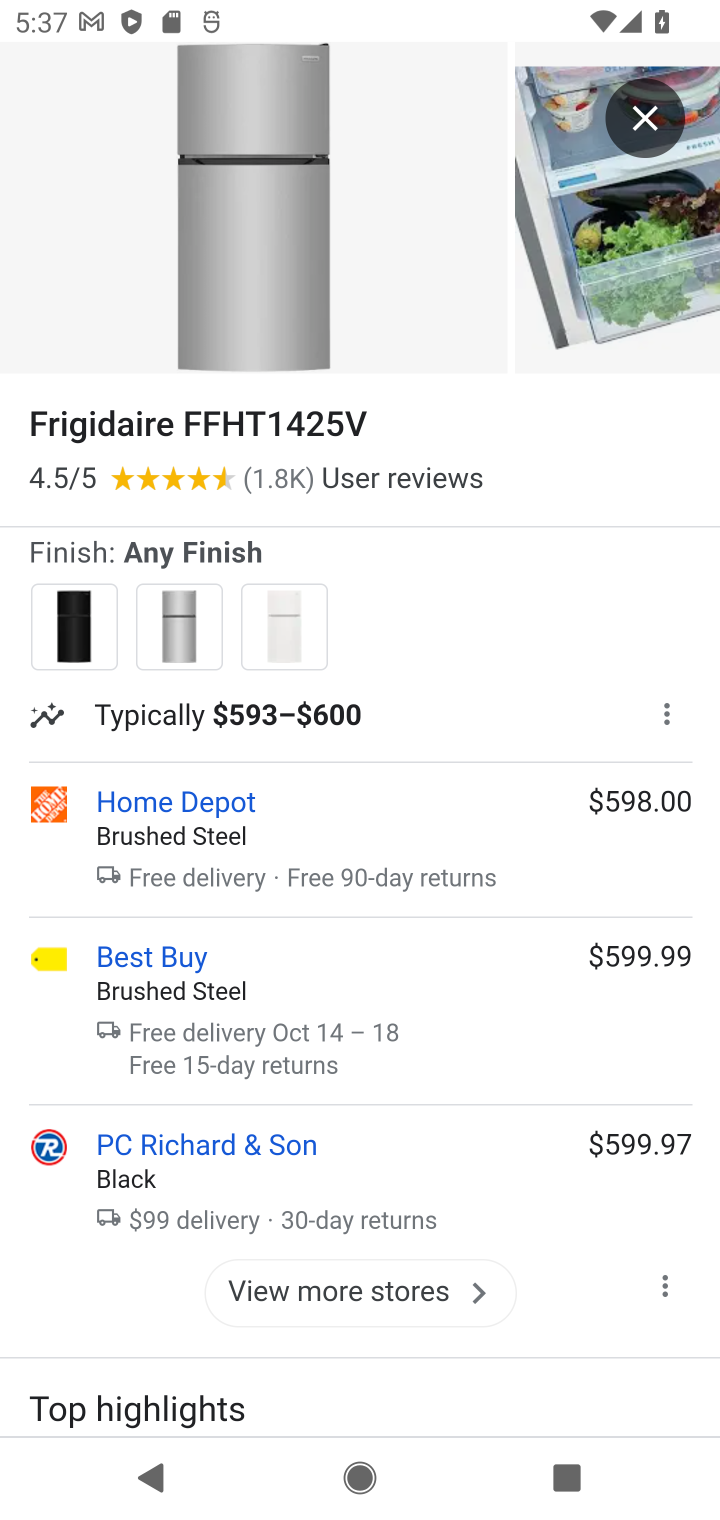
Step 26: drag from (413, 646) to (86, 622)
Your task to perform on an android device: What are the best selling refrigerators at Home Depot? Image 27: 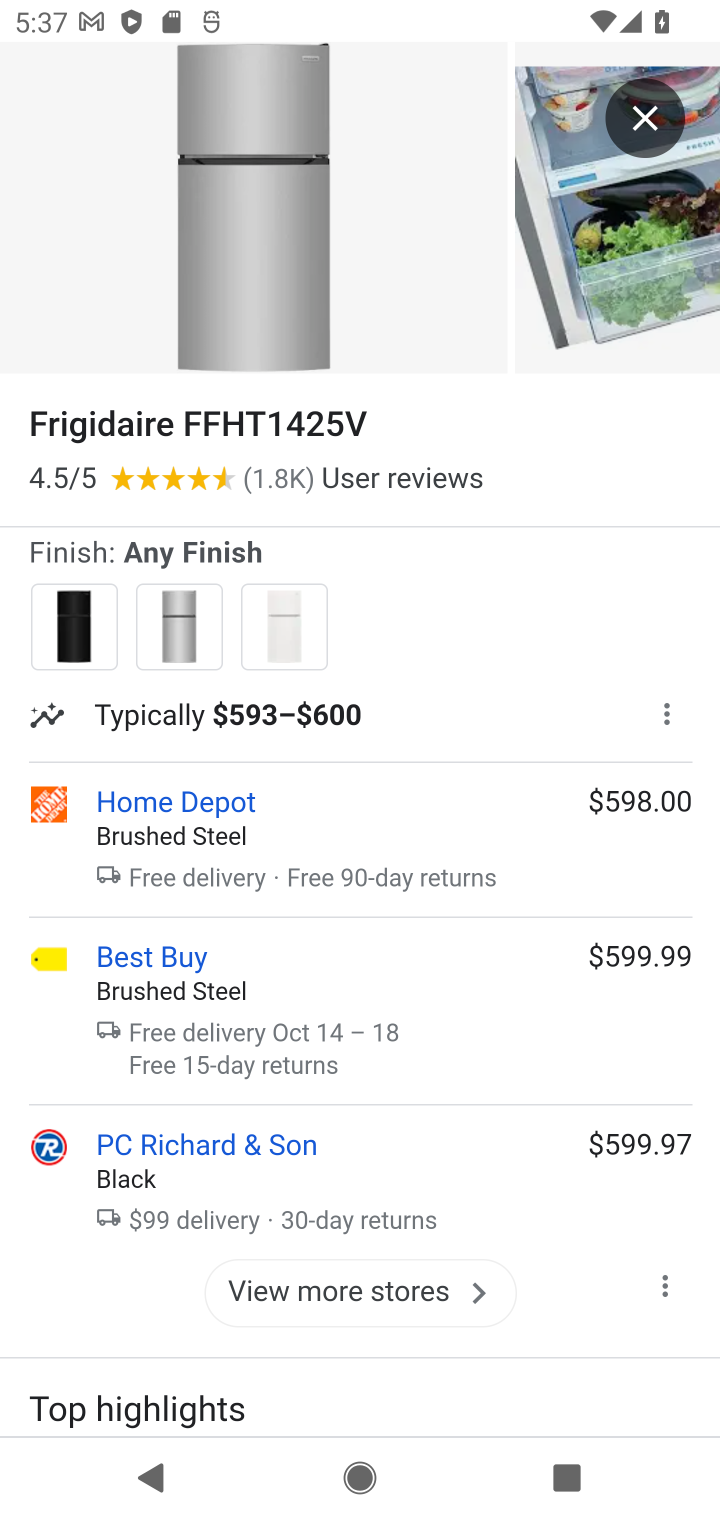
Step 27: drag from (676, 651) to (207, 653)
Your task to perform on an android device: What are the best selling refrigerators at Home Depot? Image 28: 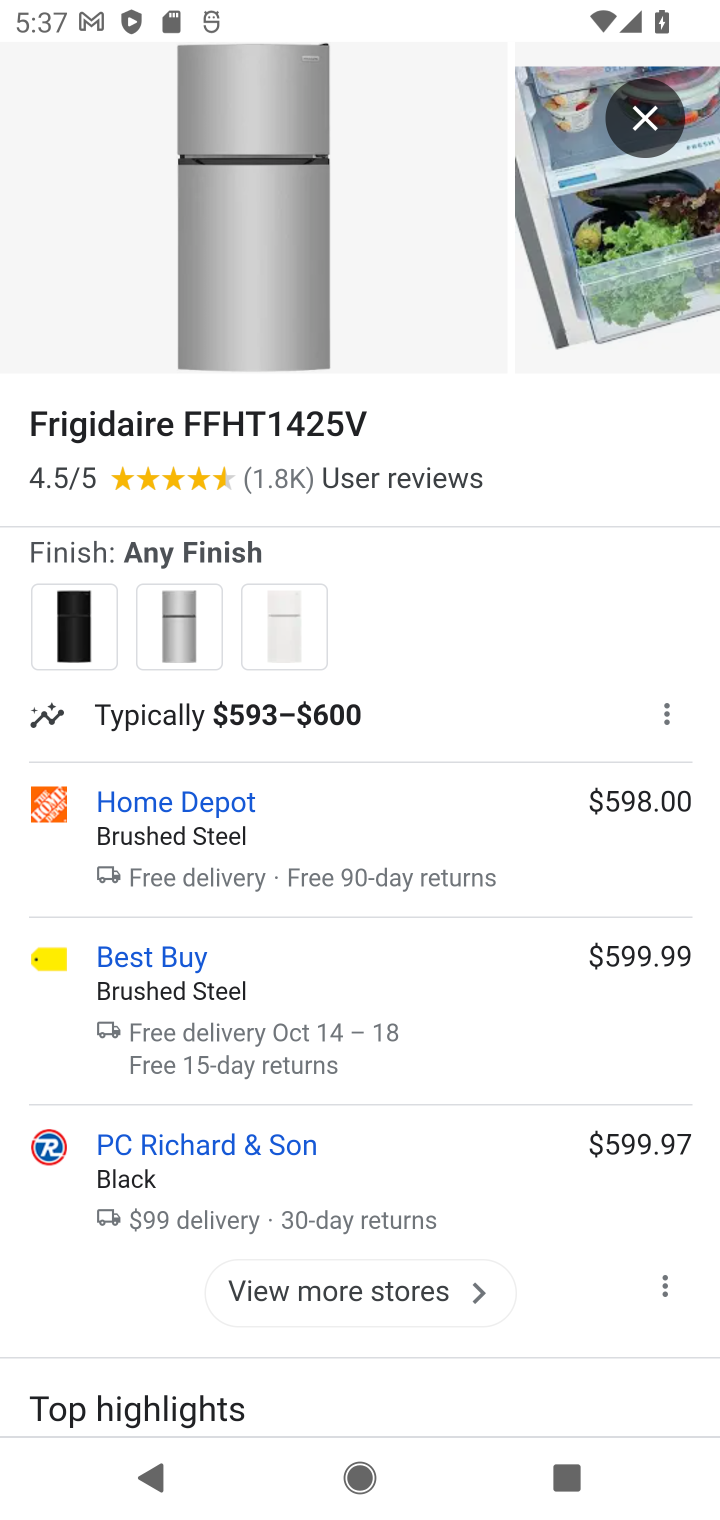
Step 28: click (110, 418)
Your task to perform on an android device: What are the best selling refrigerators at Home Depot? Image 29: 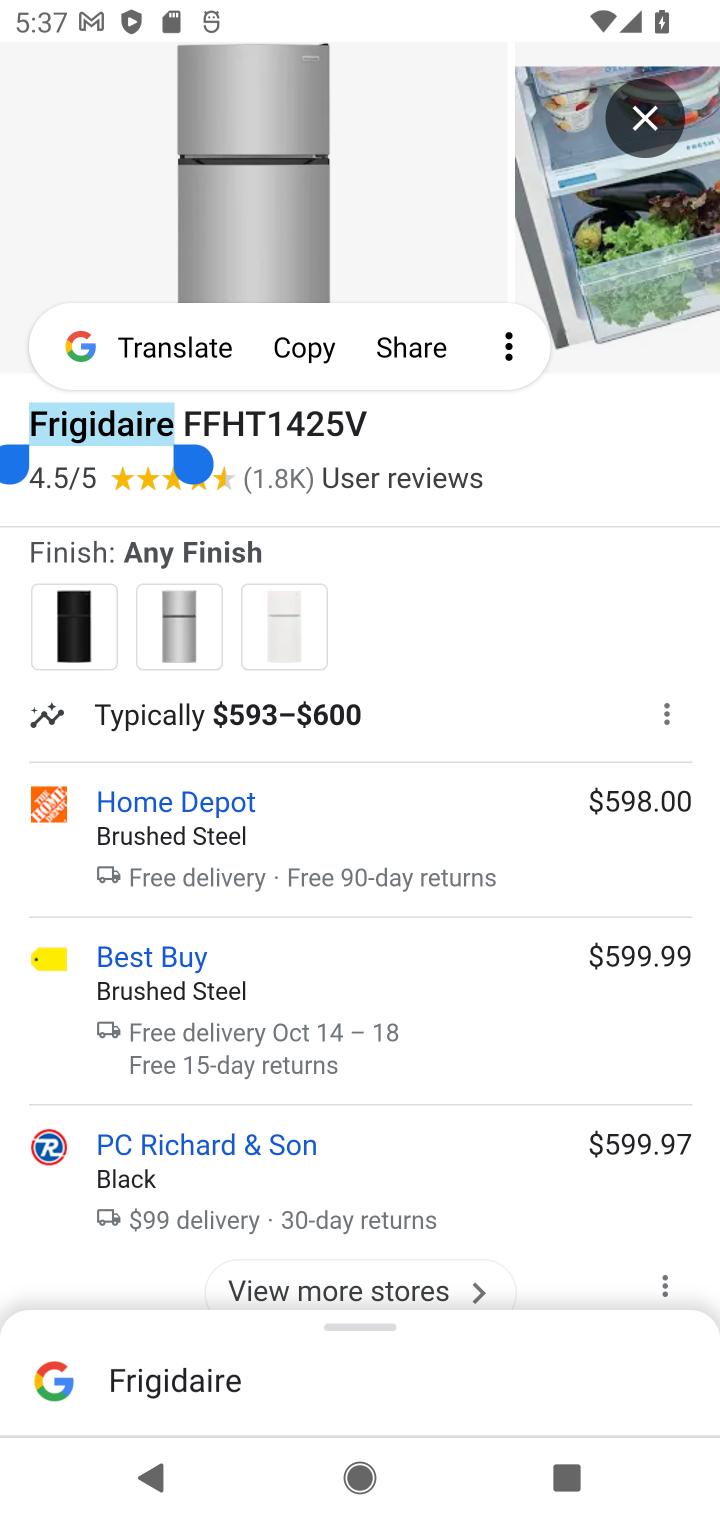
Step 29: click (461, 479)
Your task to perform on an android device: What are the best selling refrigerators at Home Depot? Image 30: 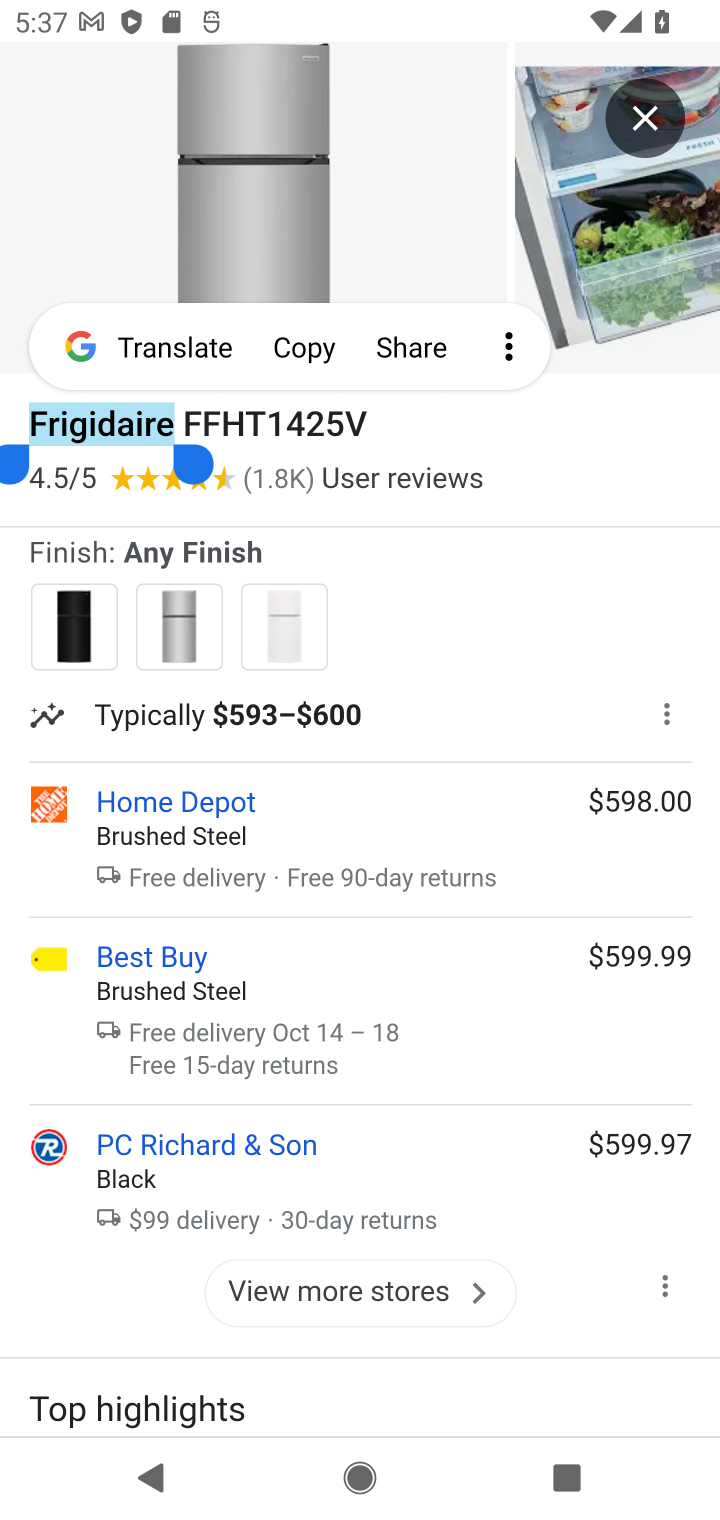
Step 30: drag from (493, 1173) to (534, 366)
Your task to perform on an android device: What are the best selling refrigerators at Home Depot? Image 31: 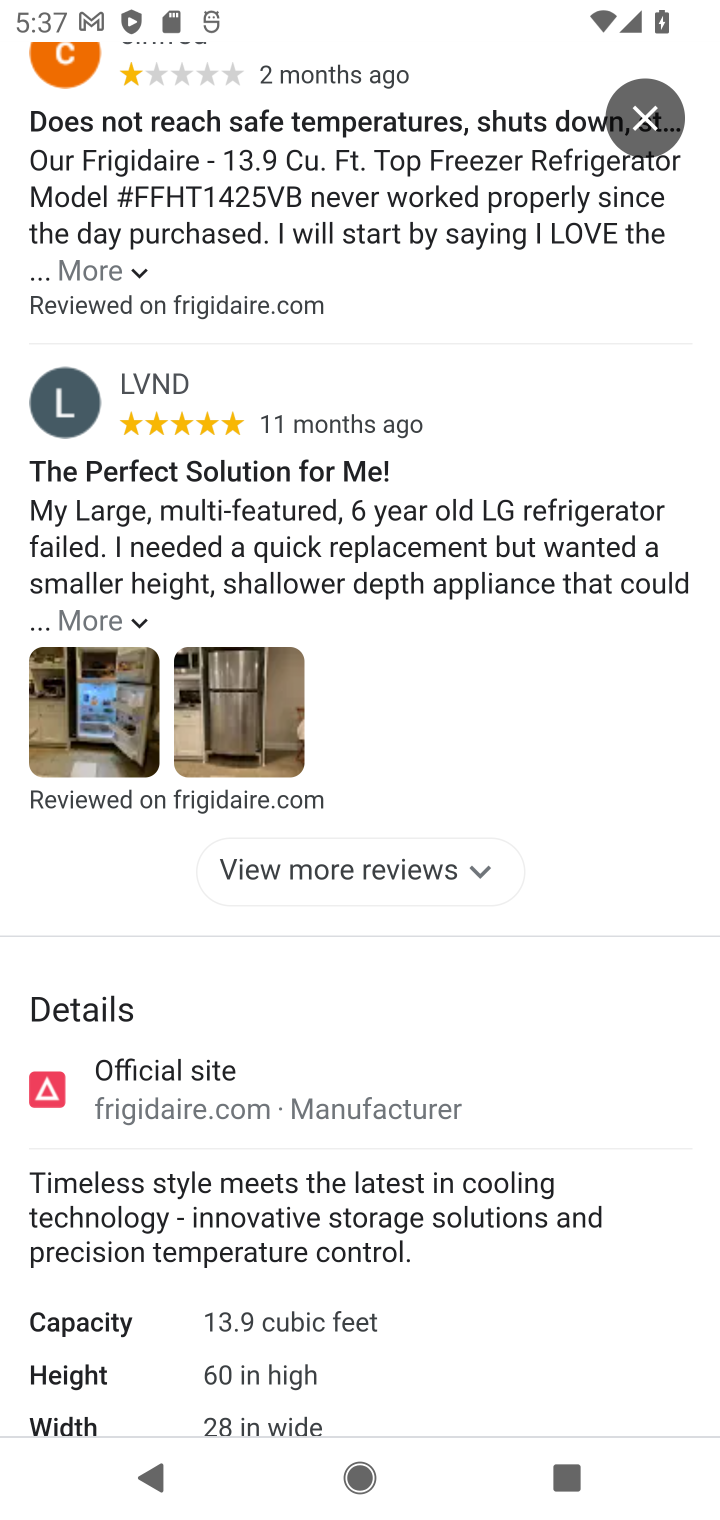
Step 31: drag from (507, 849) to (494, 312)
Your task to perform on an android device: What are the best selling refrigerators at Home Depot? Image 32: 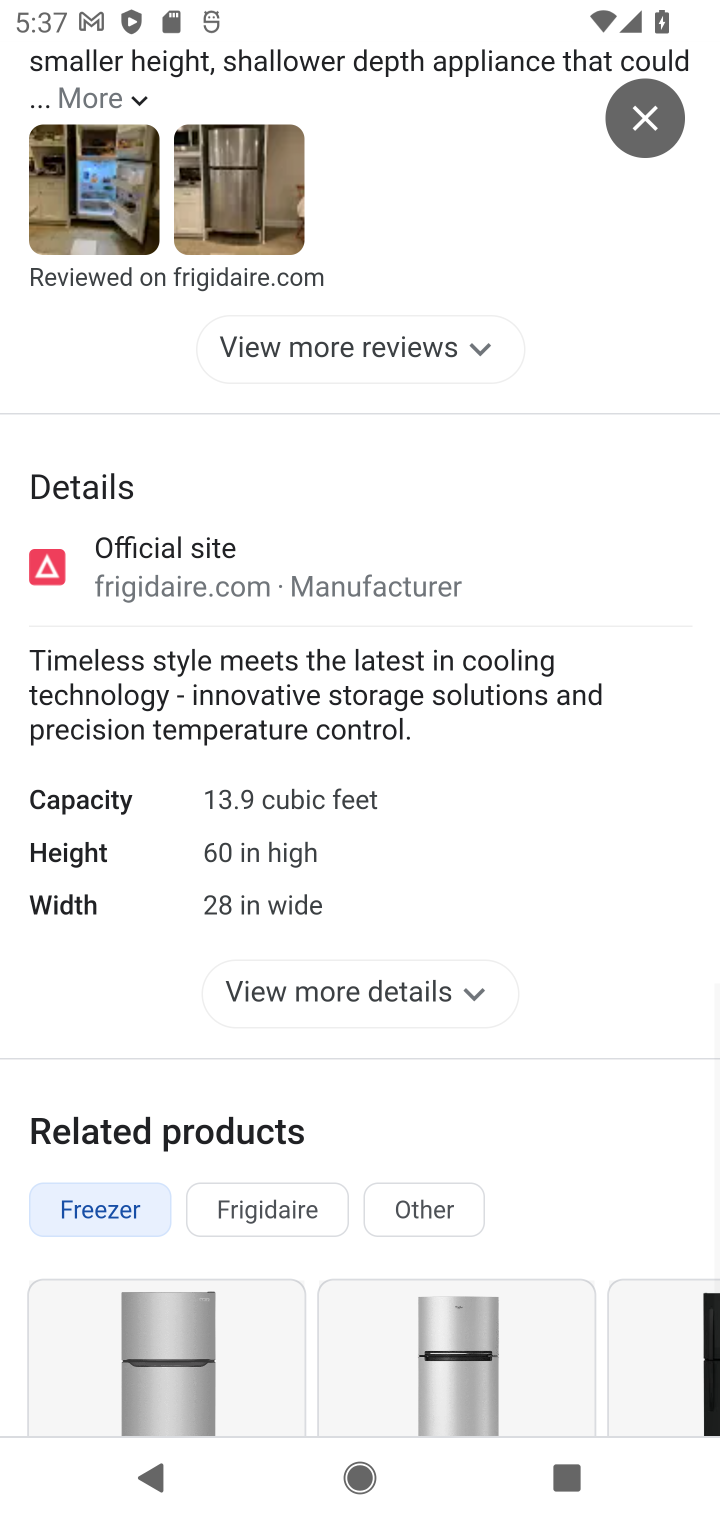
Step 32: press back button
Your task to perform on an android device: What are the best selling refrigerators at Home Depot? Image 33: 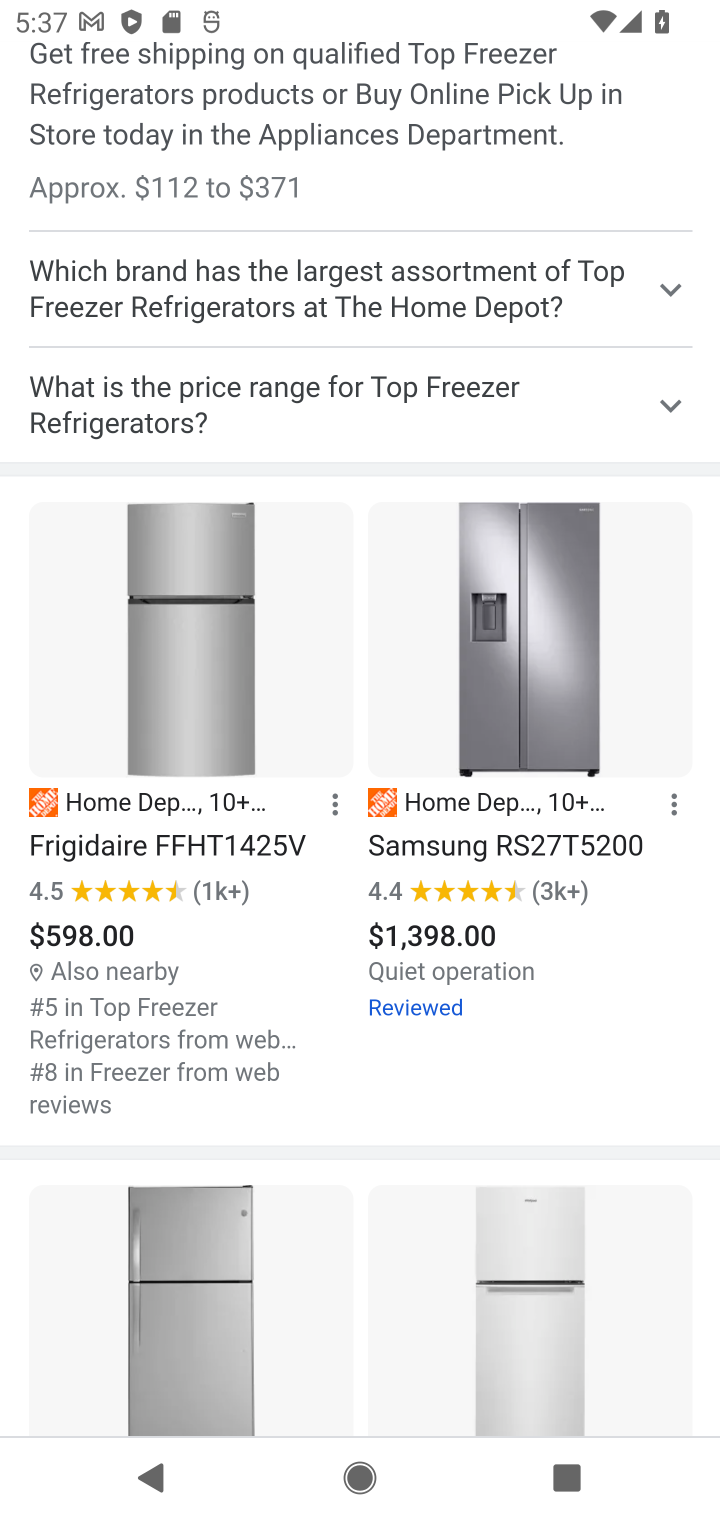
Step 33: drag from (322, 315) to (275, 1191)
Your task to perform on an android device: What are the best selling refrigerators at Home Depot? Image 34: 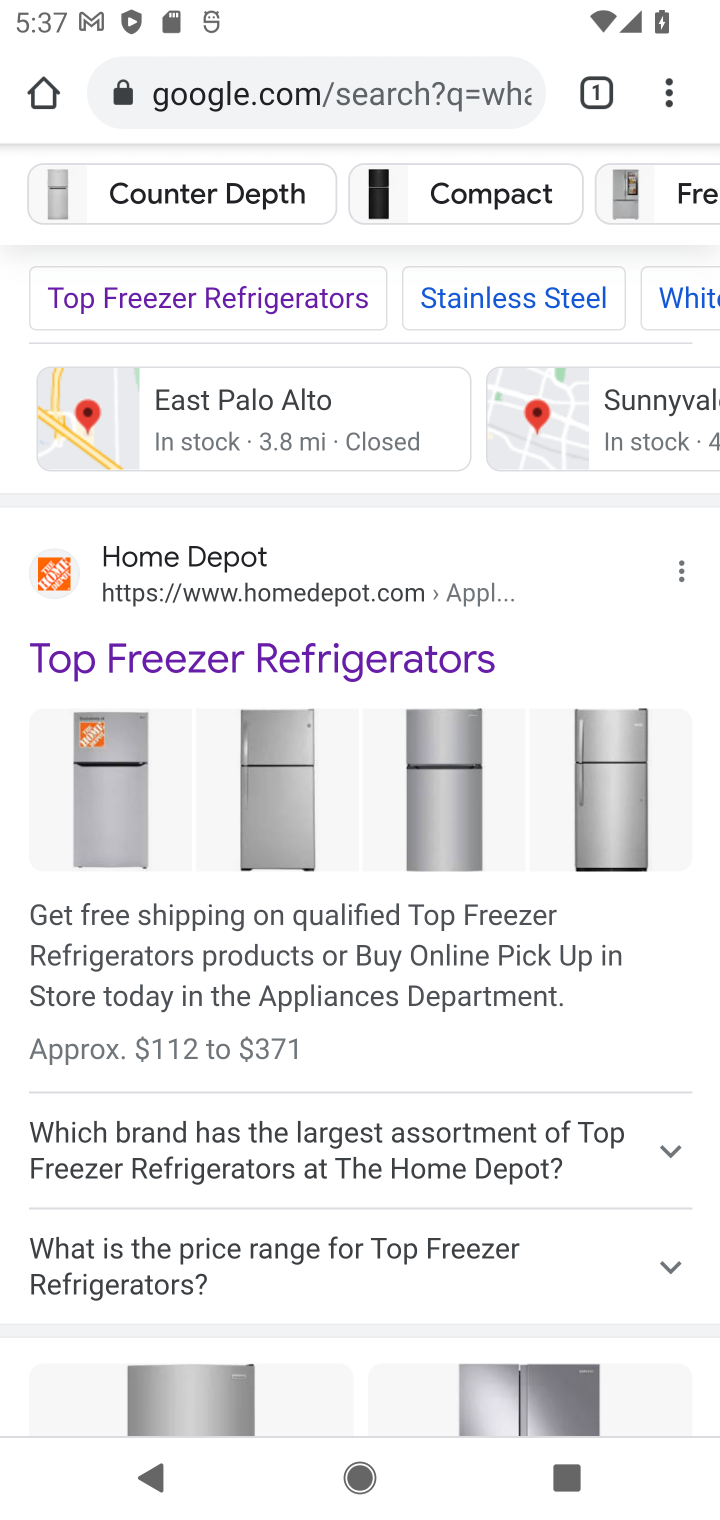
Step 34: drag from (334, 496) to (359, 1046)
Your task to perform on an android device: What are the best selling refrigerators at Home Depot? Image 35: 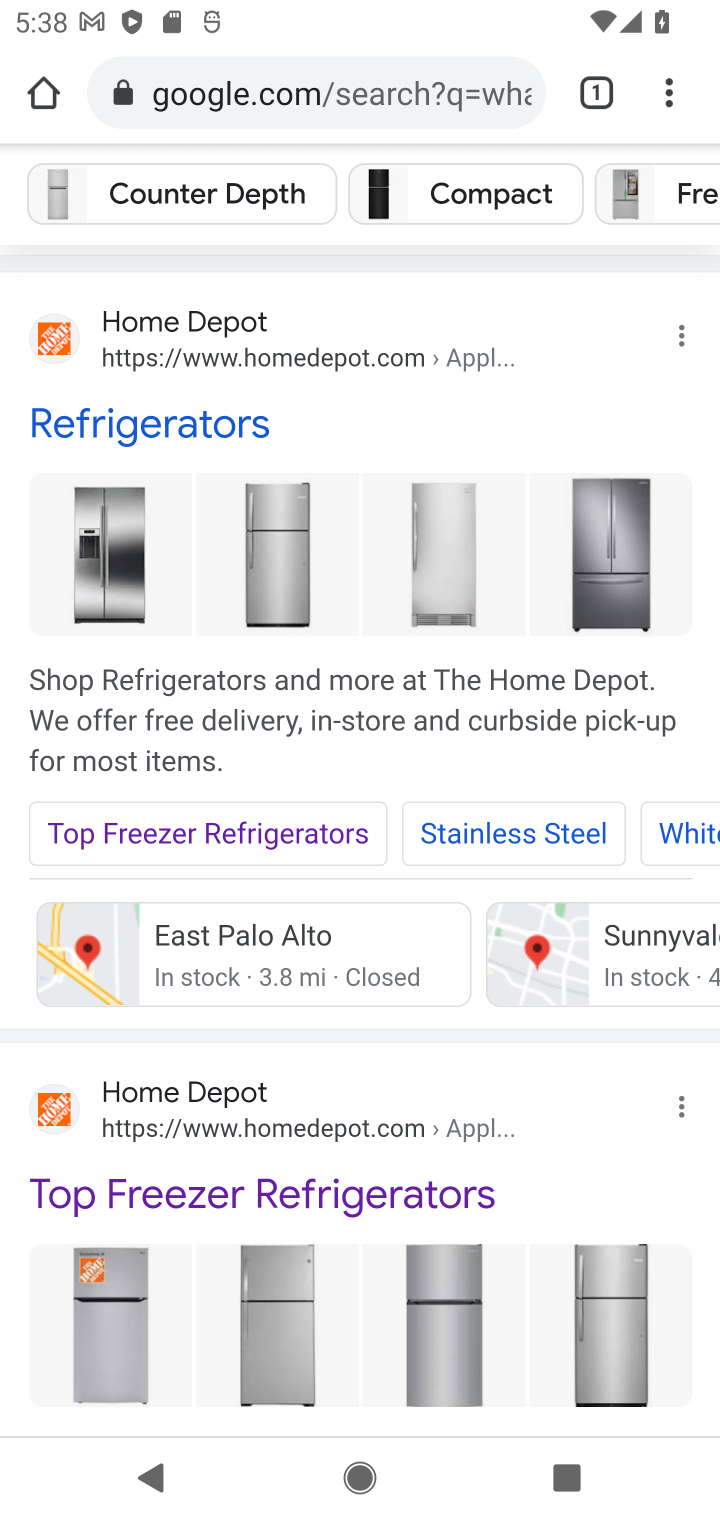
Step 35: click (223, 423)
Your task to perform on an android device: What are the best selling refrigerators at Home Depot? Image 36: 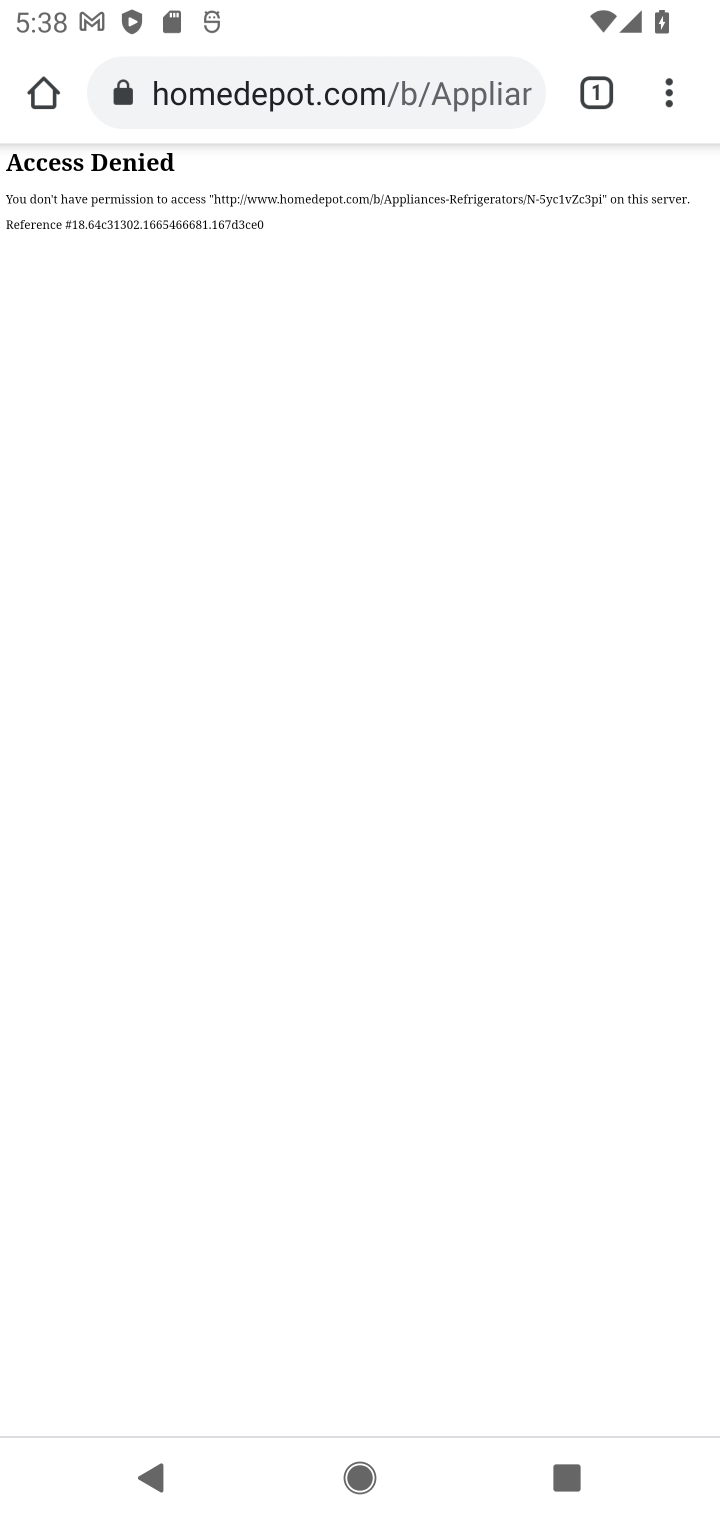
Step 36: press back button
Your task to perform on an android device: What are the best selling refrigerators at Home Depot? Image 37: 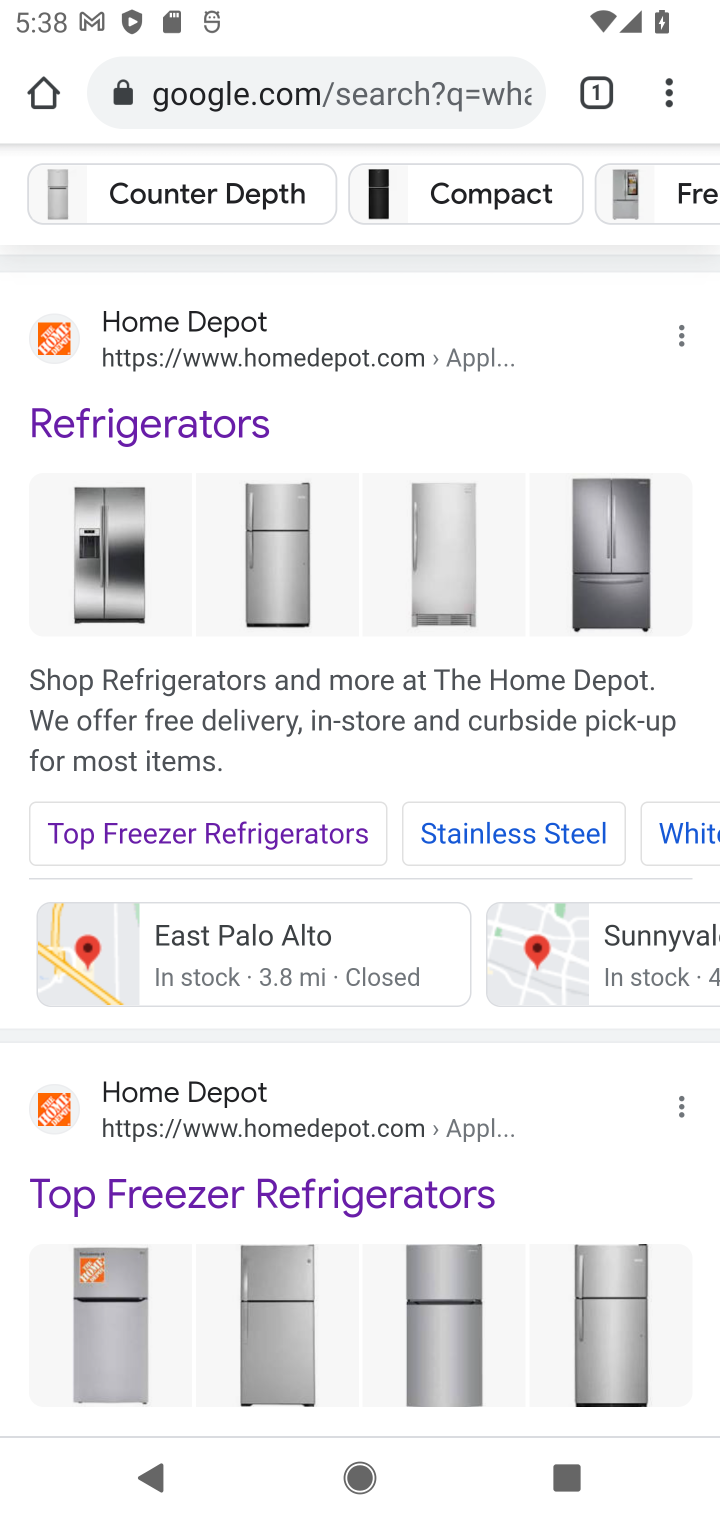
Step 37: drag from (433, 759) to (518, 294)
Your task to perform on an android device: What are the best selling refrigerators at Home Depot? Image 38: 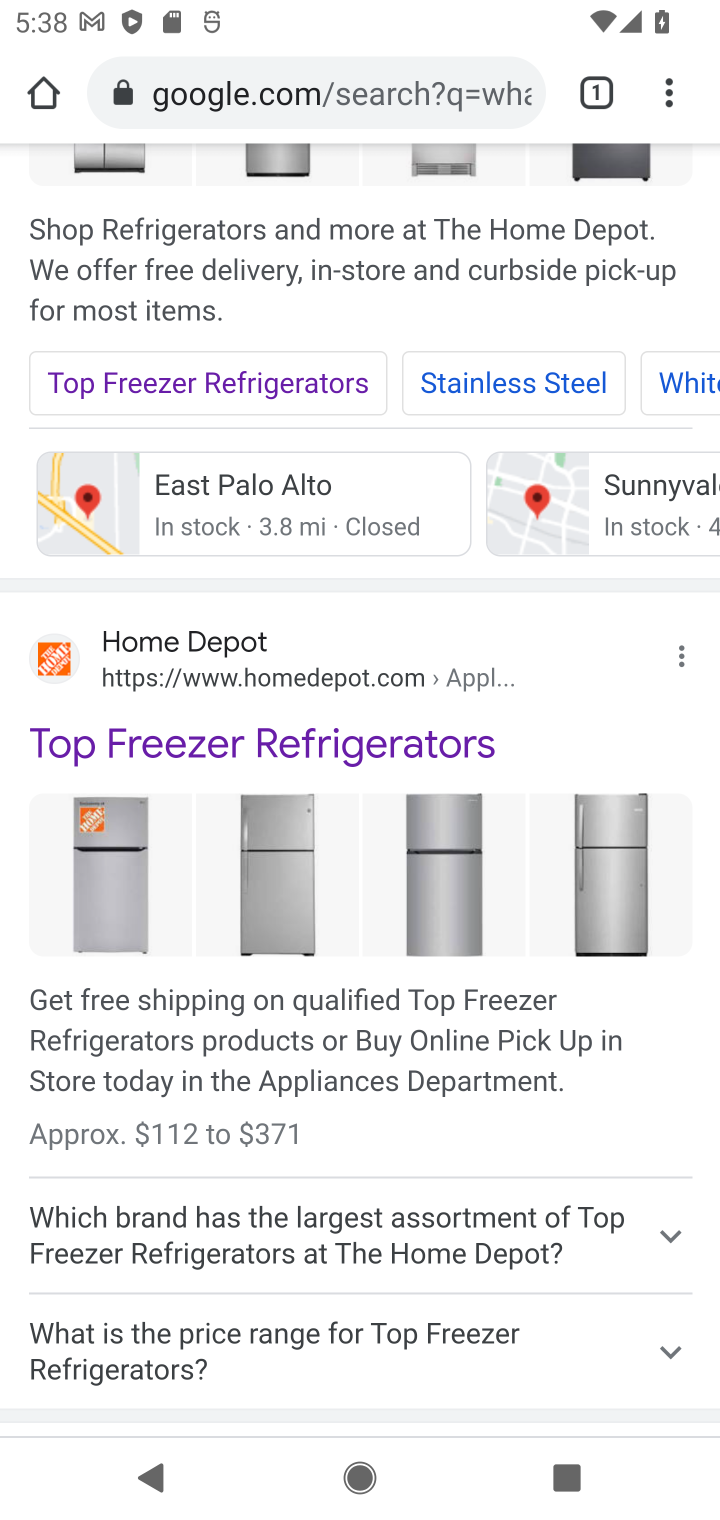
Step 38: drag from (419, 1327) to (437, 462)
Your task to perform on an android device: What are the best selling refrigerators at Home Depot? Image 39: 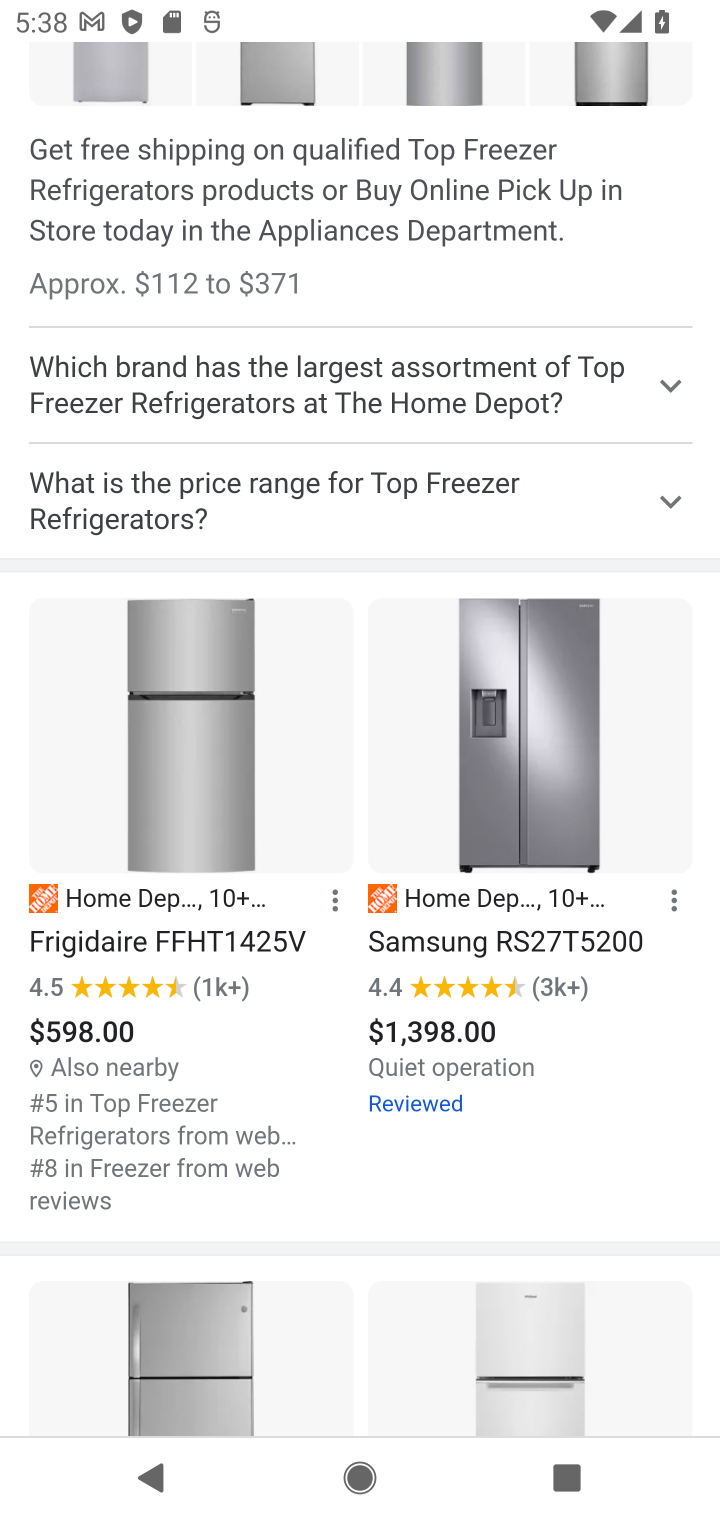
Step 39: drag from (407, 1194) to (478, 402)
Your task to perform on an android device: What are the best selling refrigerators at Home Depot? Image 40: 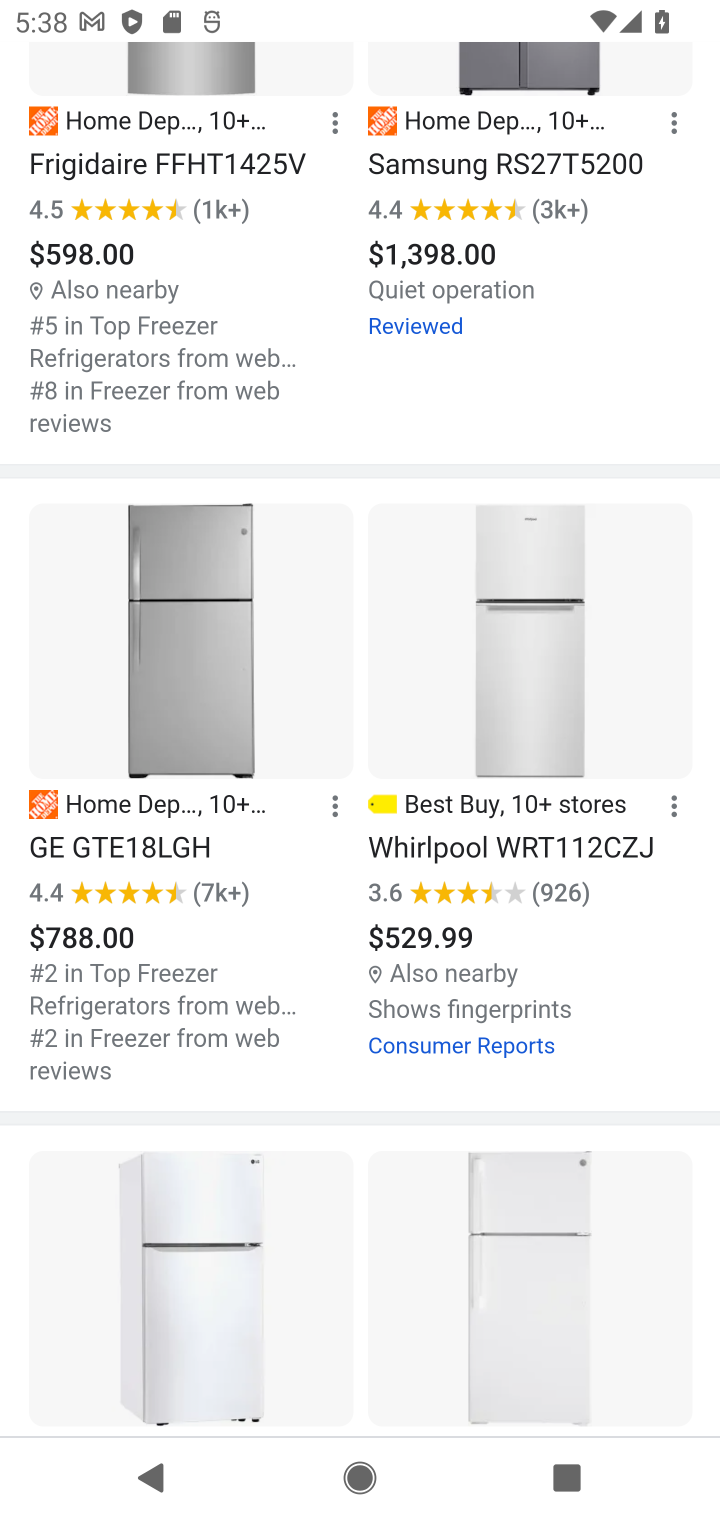
Step 40: drag from (375, 1256) to (456, 417)
Your task to perform on an android device: What are the best selling refrigerators at Home Depot? Image 41: 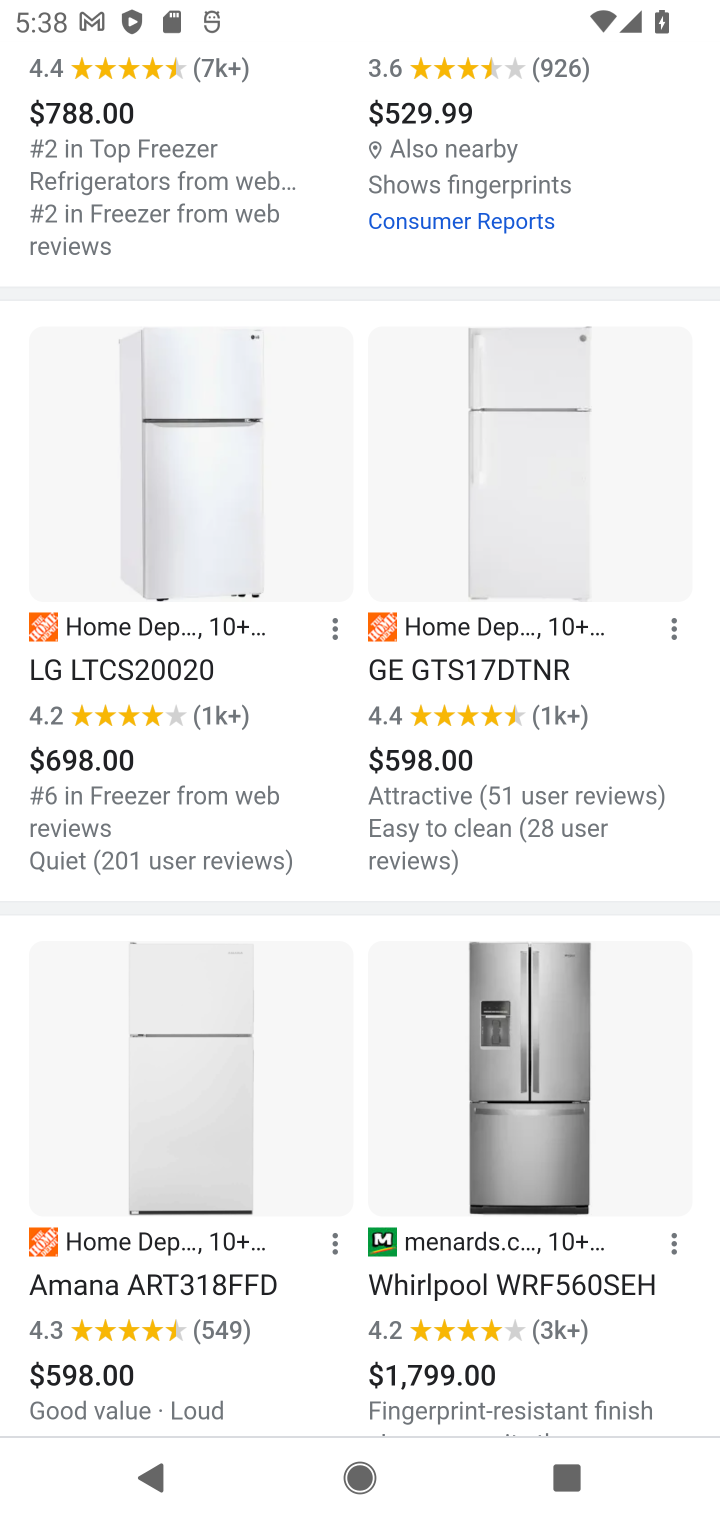
Step 41: drag from (393, 1031) to (440, 362)
Your task to perform on an android device: What are the best selling refrigerators at Home Depot? Image 42: 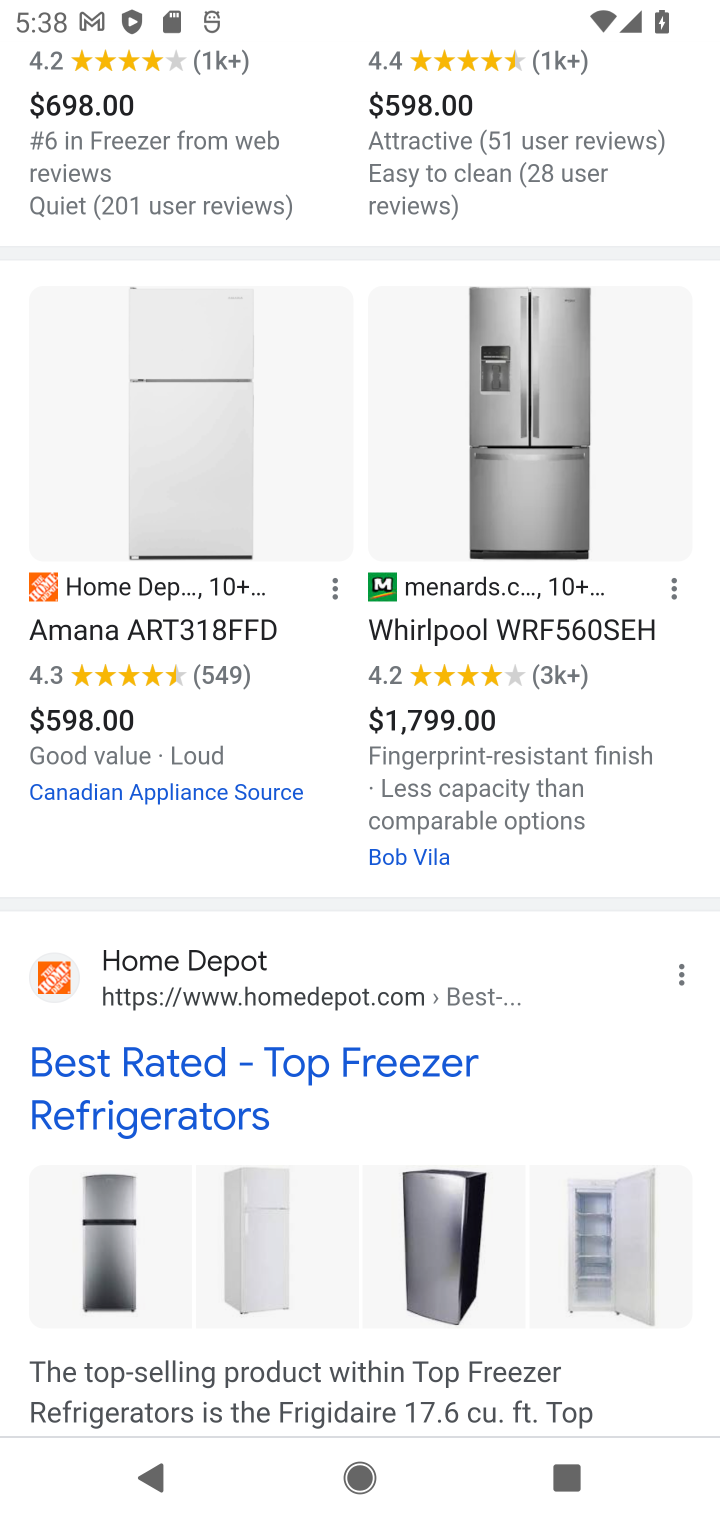
Step 42: click (327, 1068)
Your task to perform on an android device: What are the best selling refrigerators at Home Depot? Image 43: 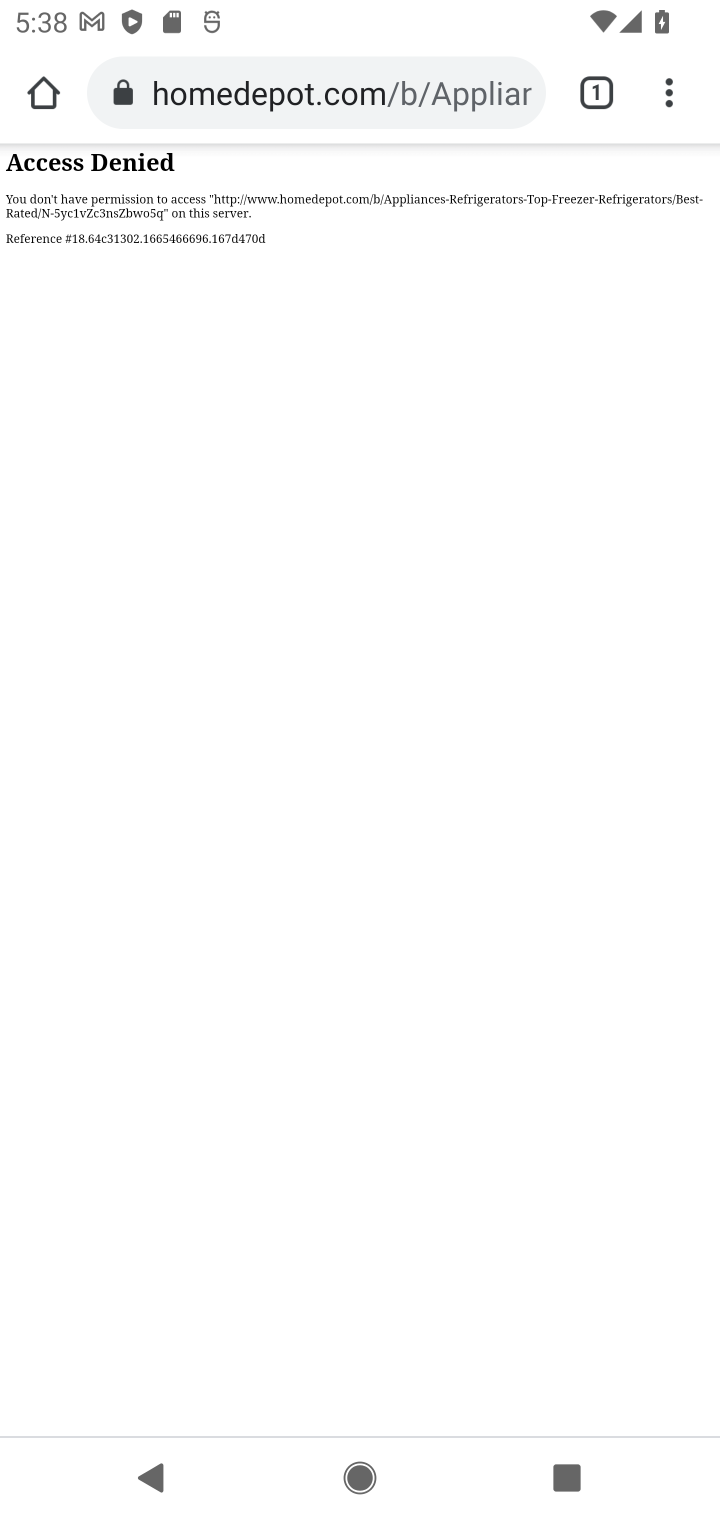
Step 43: press back button
Your task to perform on an android device: What are the best selling refrigerators at Home Depot? Image 44: 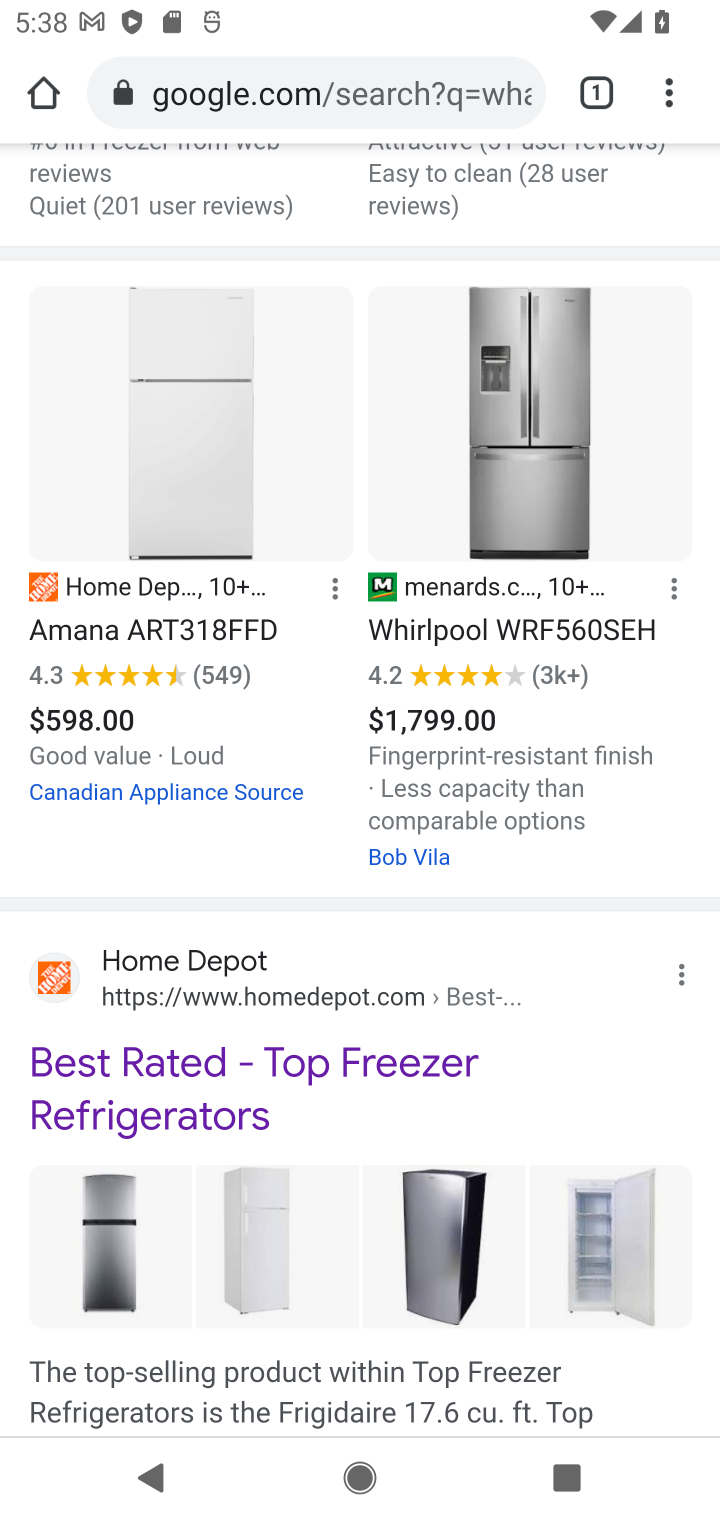
Step 44: drag from (554, 1051) to (562, 345)
Your task to perform on an android device: What are the best selling refrigerators at Home Depot? Image 45: 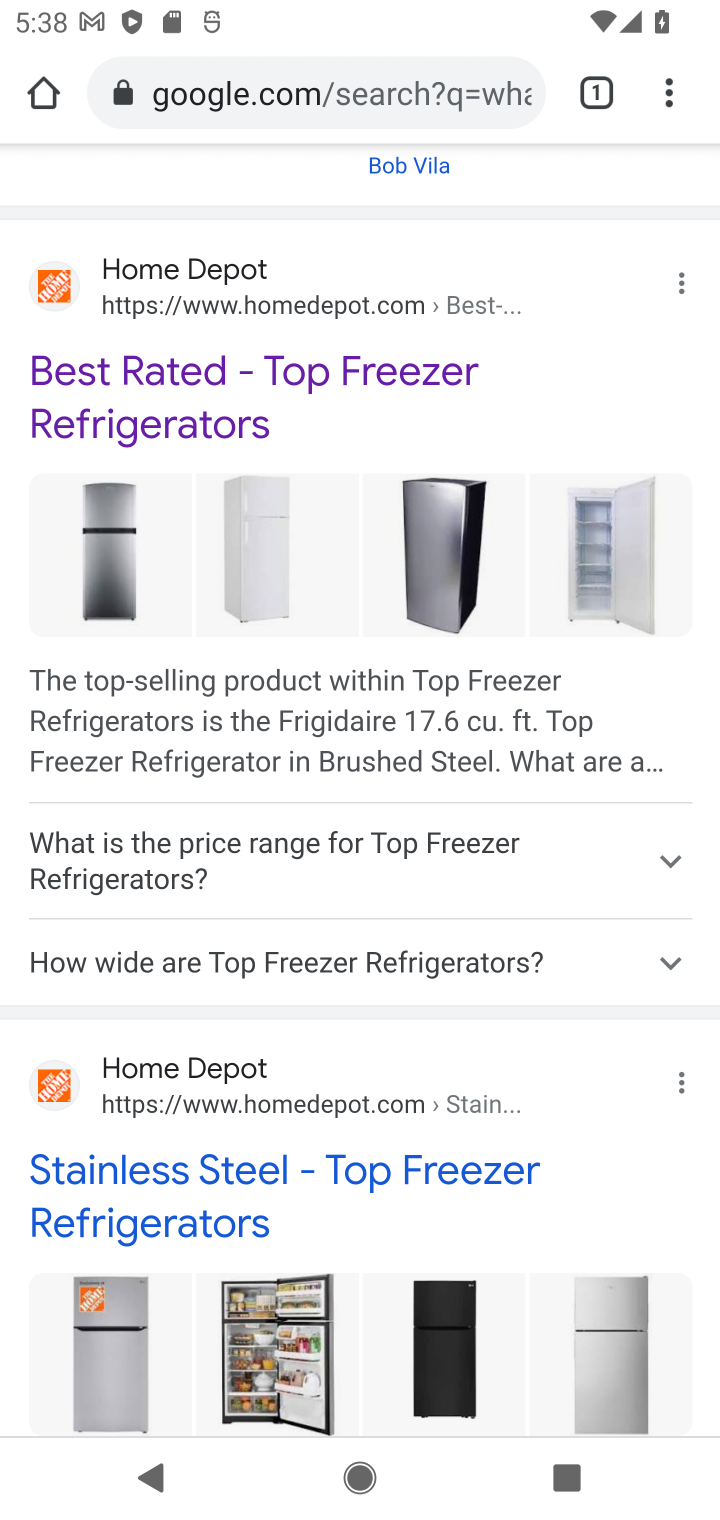
Step 45: drag from (422, 1183) to (448, 590)
Your task to perform on an android device: What are the best selling refrigerators at Home Depot? Image 46: 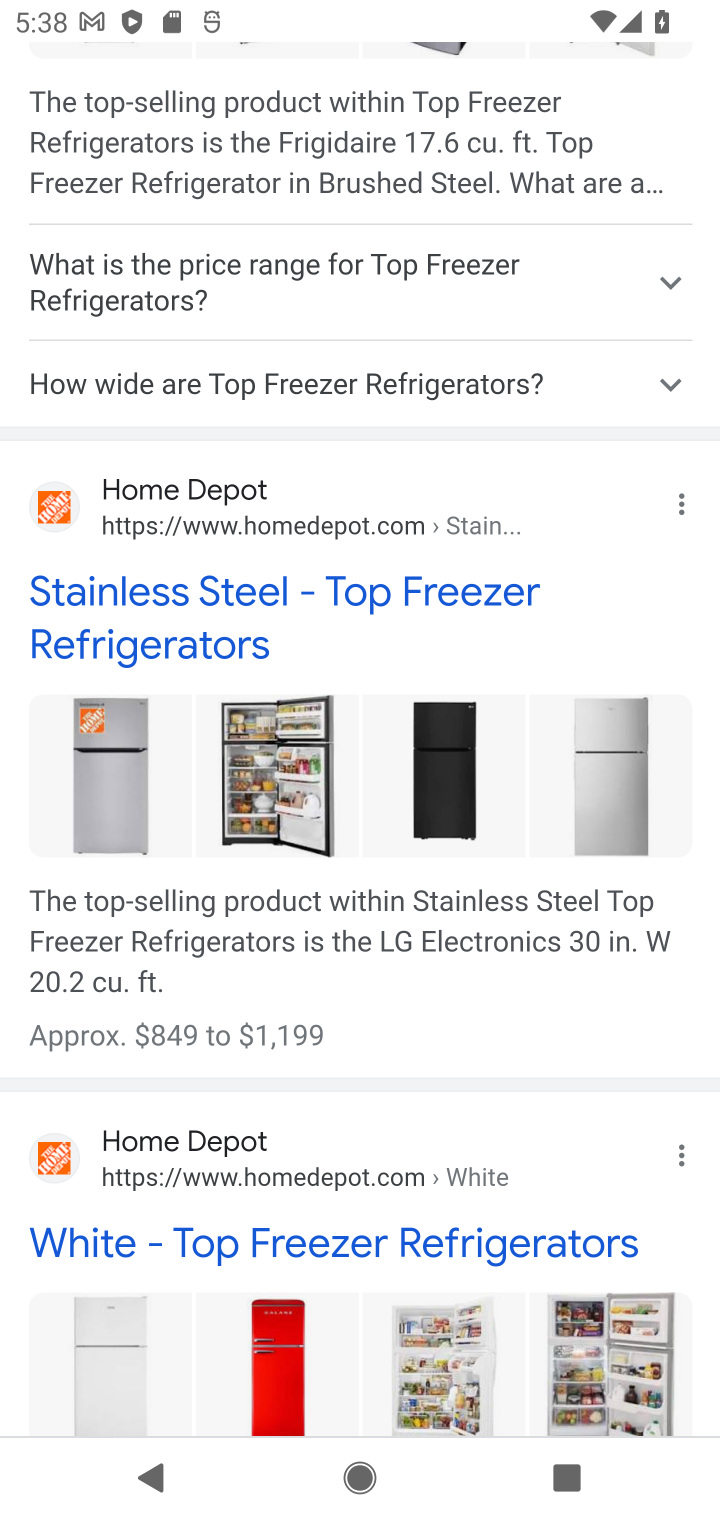
Step 46: click (297, 598)
Your task to perform on an android device: What are the best selling refrigerators at Home Depot? Image 47: 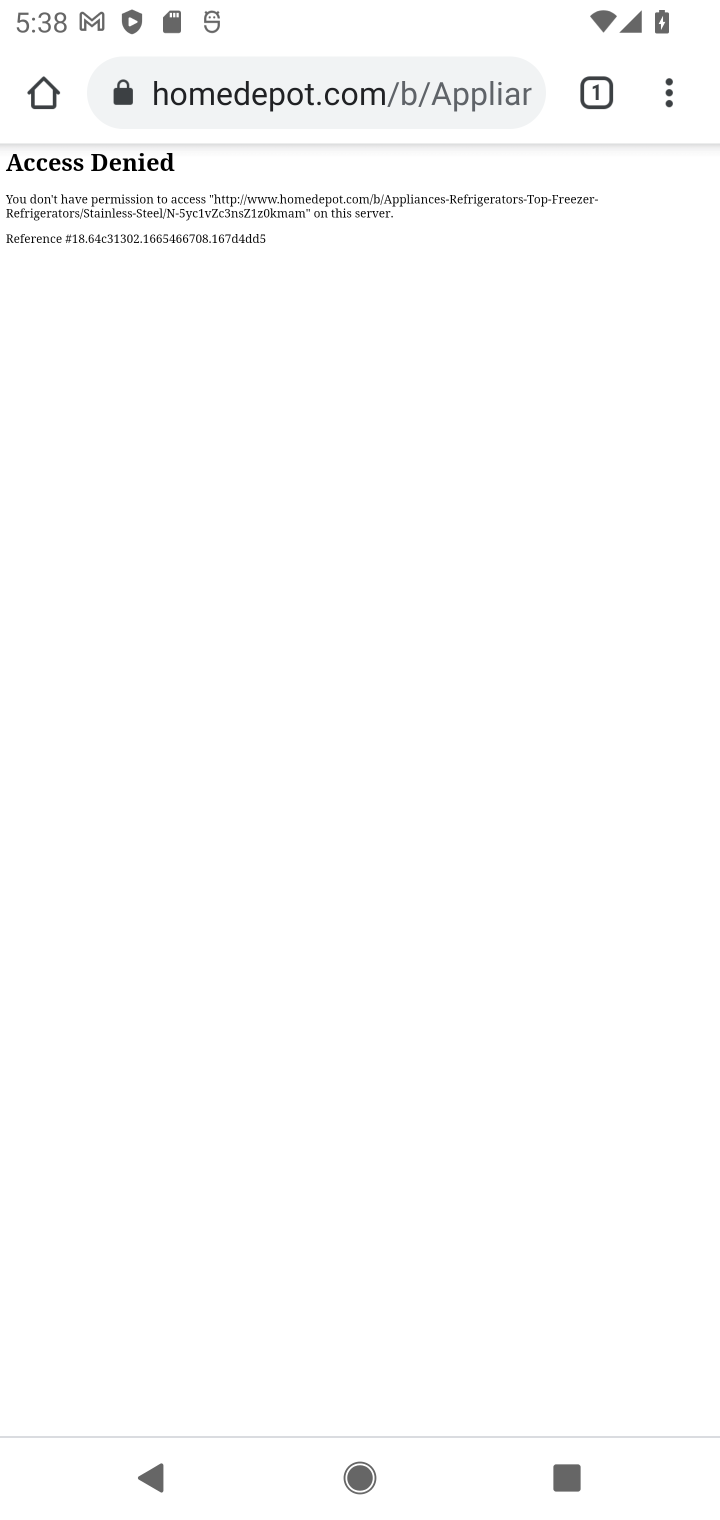
Step 47: press back button
Your task to perform on an android device: What are the best selling refrigerators at Home Depot? Image 48: 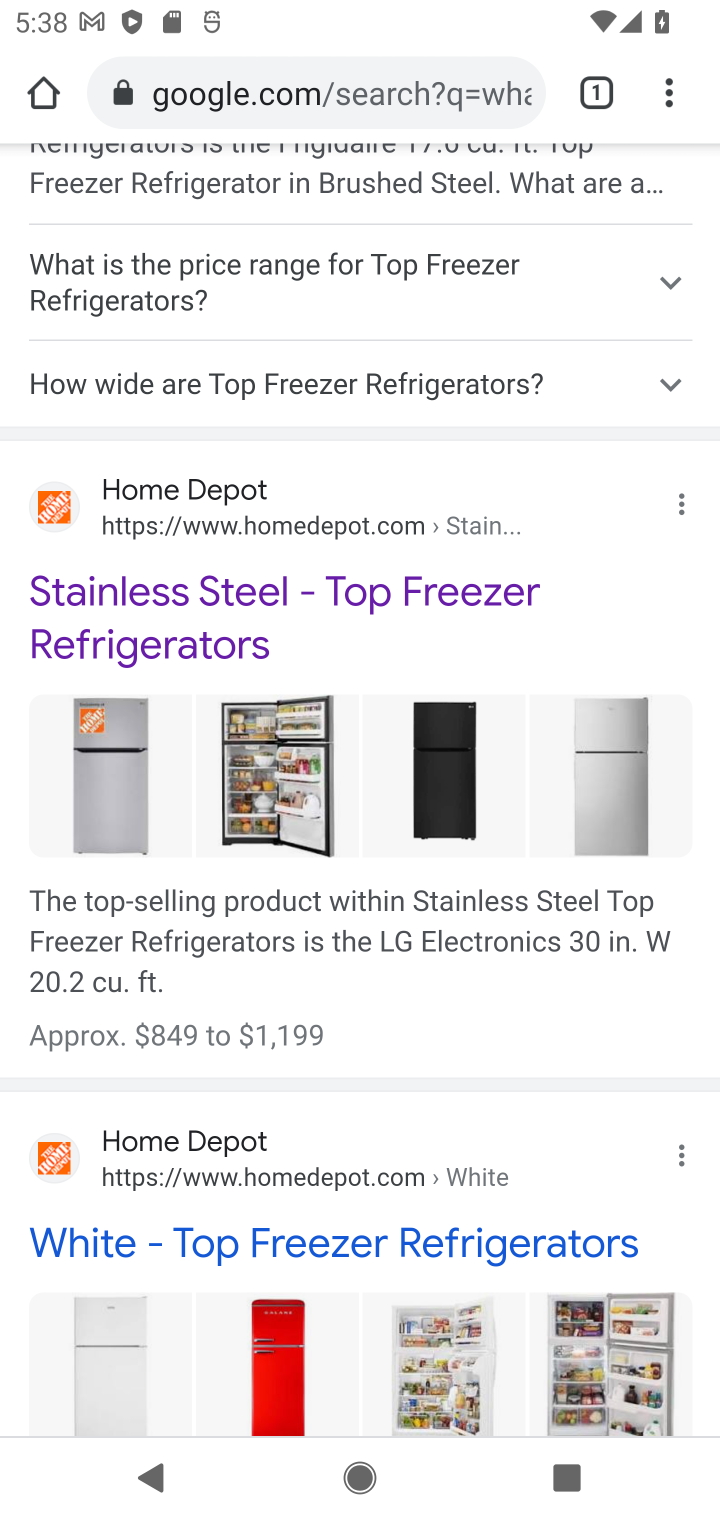
Step 48: click (224, 1246)
Your task to perform on an android device: What are the best selling refrigerators at Home Depot? Image 49: 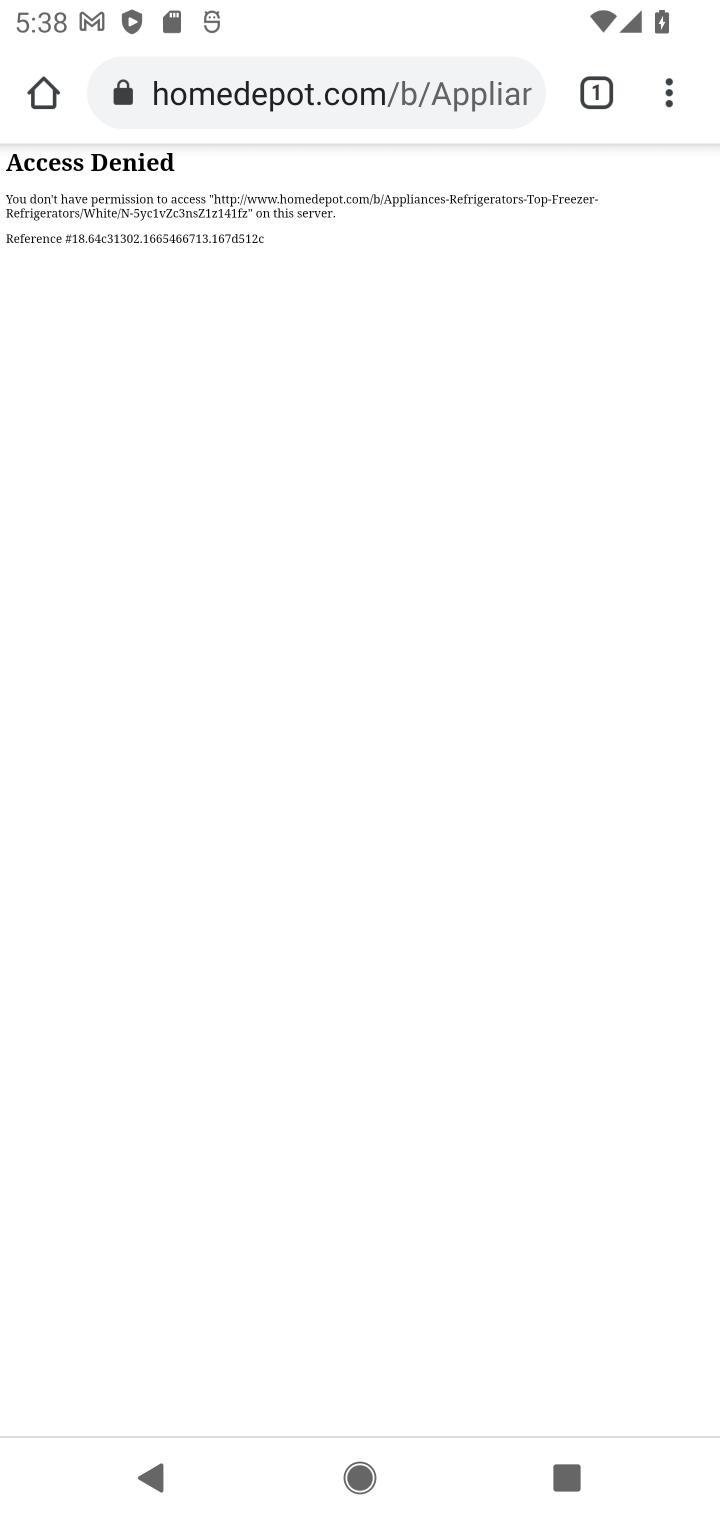
Step 49: press back button
Your task to perform on an android device: What are the best selling refrigerators at Home Depot? Image 50: 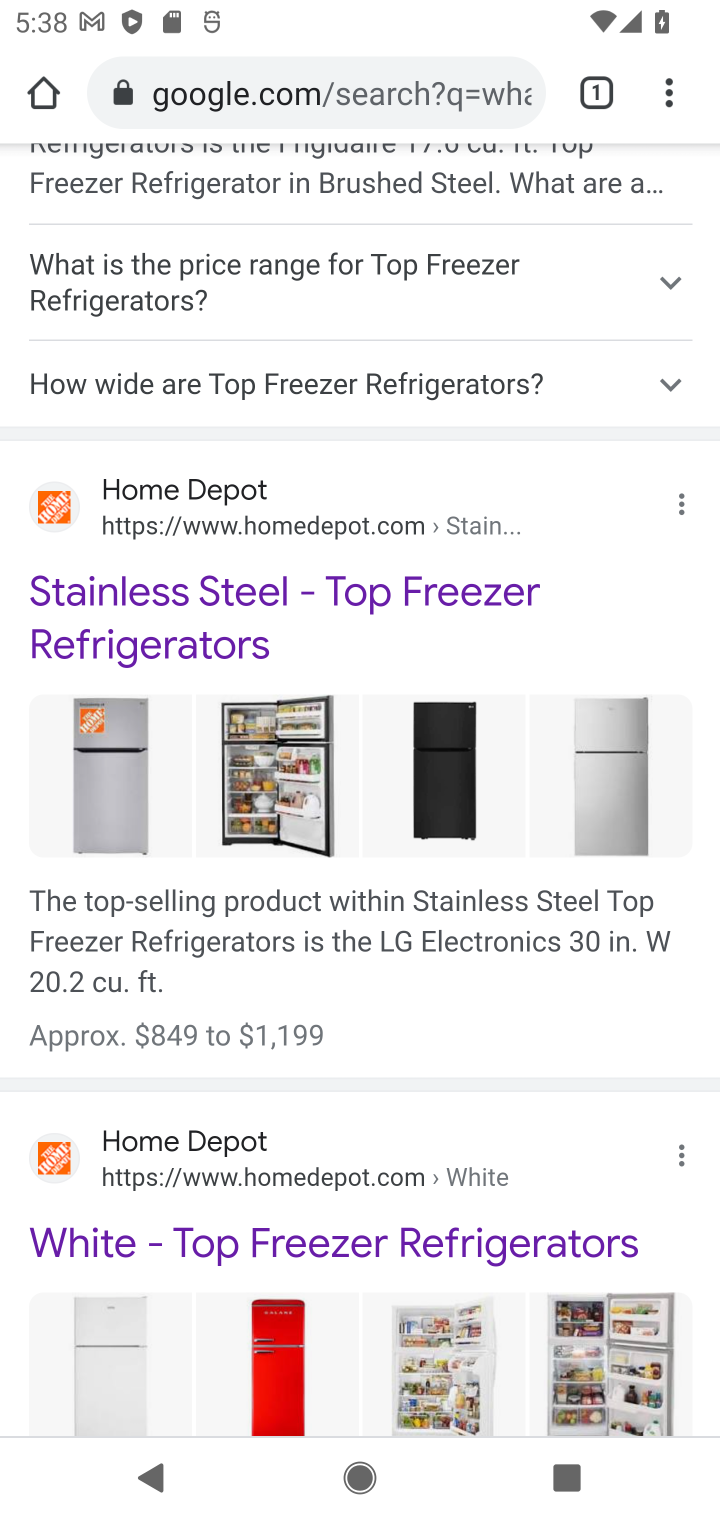
Step 50: drag from (503, 1082) to (536, 318)
Your task to perform on an android device: What are the best selling refrigerators at Home Depot? Image 51: 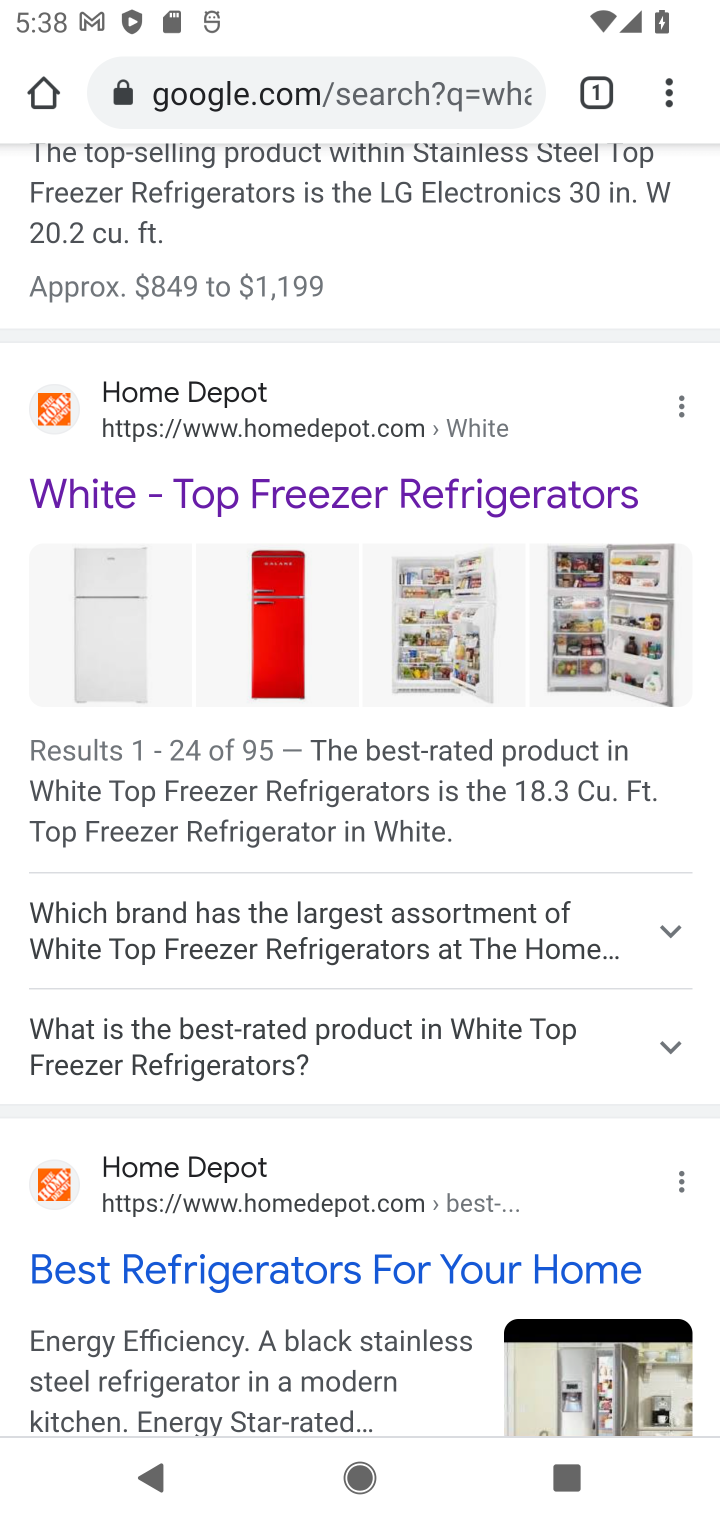
Step 51: click (214, 1255)
Your task to perform on an android device: What are the best selling refrigerators at Home Depot? Image 52: 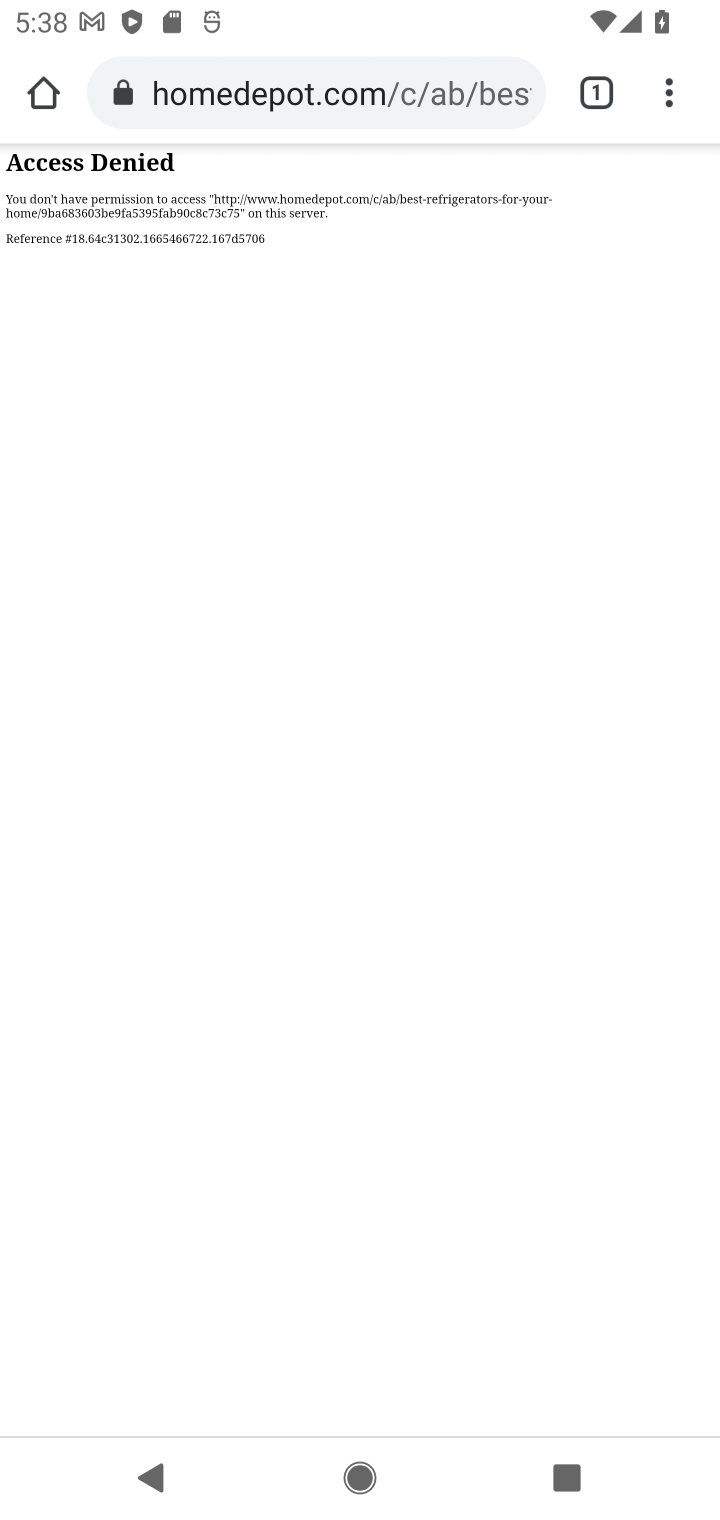
Step 52: task complete